Your task to perform on an android device: open app "Google Home" Image 0: 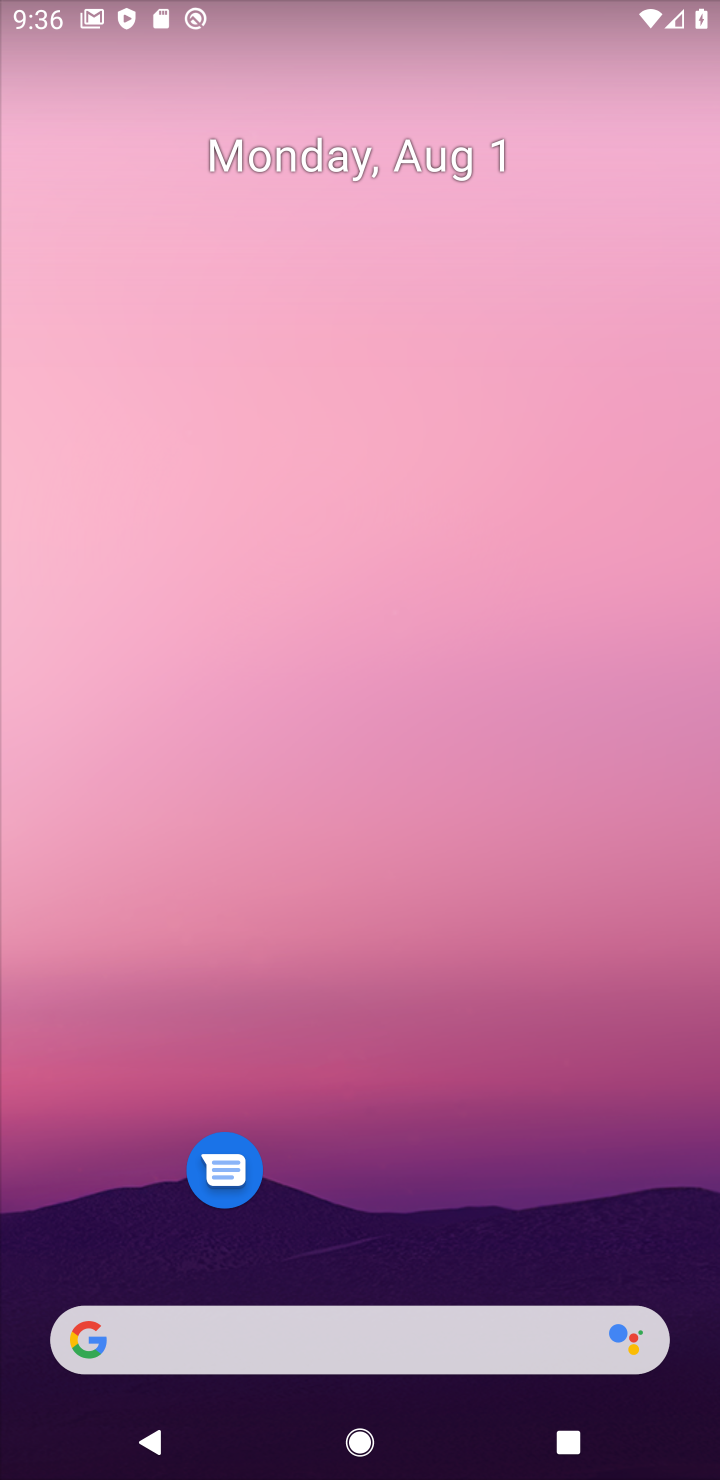
Step 0: click (264, 272)
Your task to perform on an android device: open app "Google Home" Image 1: 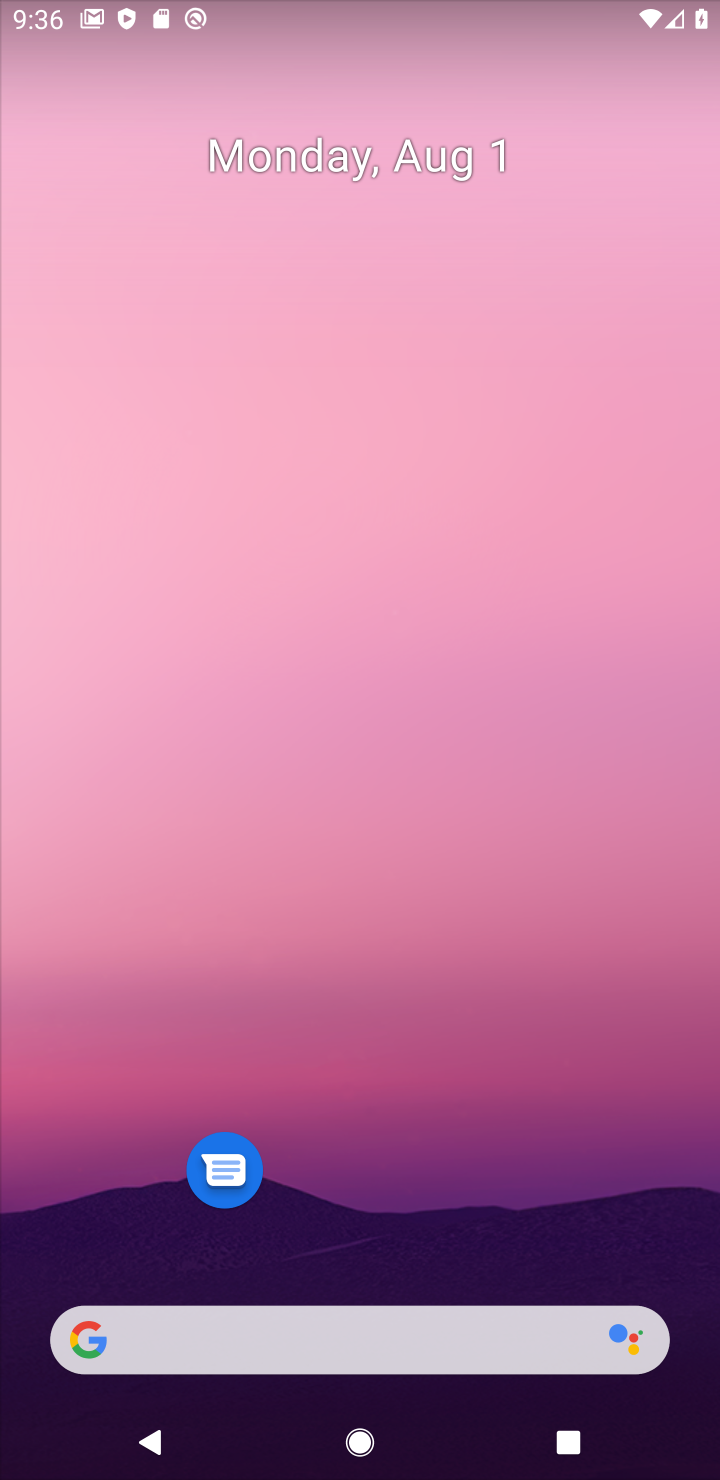
Step 1: drag from (235, 933) to (398, 171)
Your task to perform on an android device: open app "Google Home" Image 2: 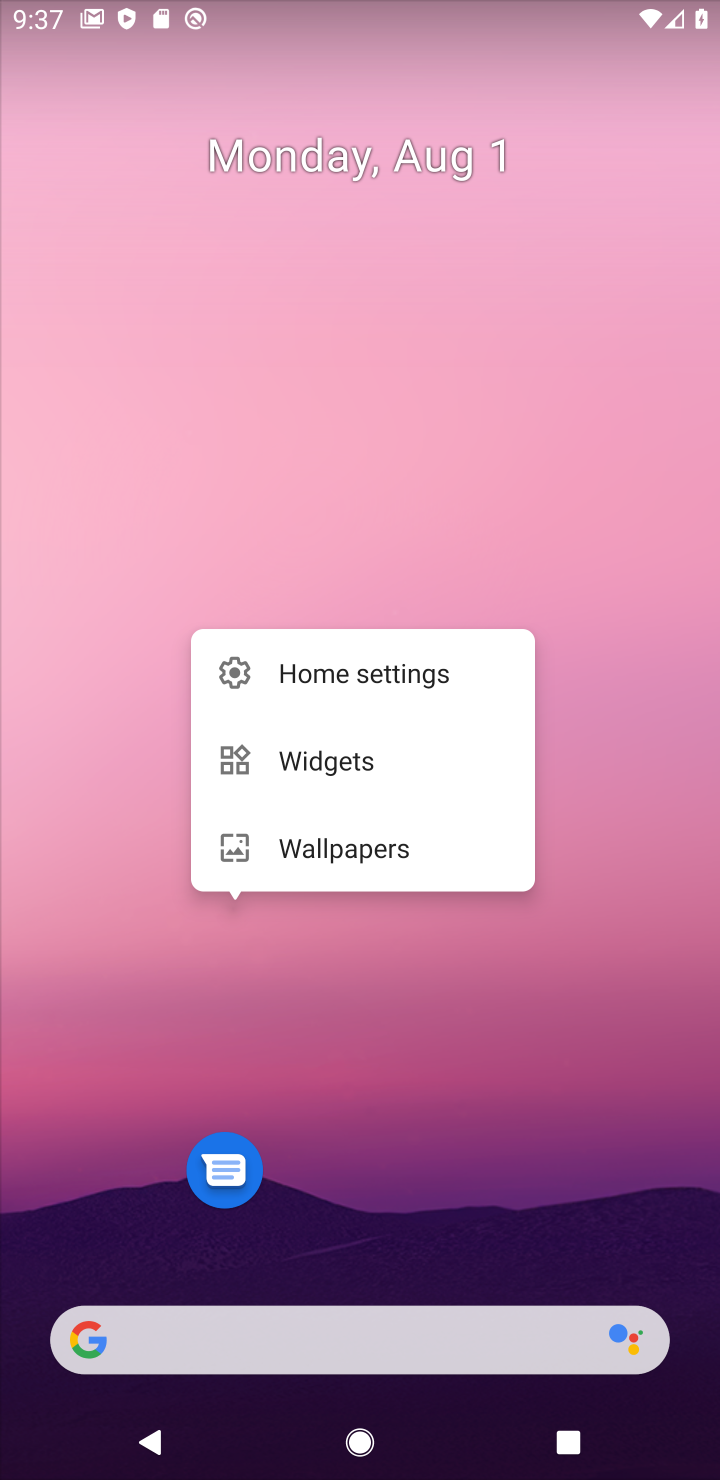
Step 2: drag from (282, 756) to (404, 247)
Your task to perform on an android device: open app "Google Home" Image 3: 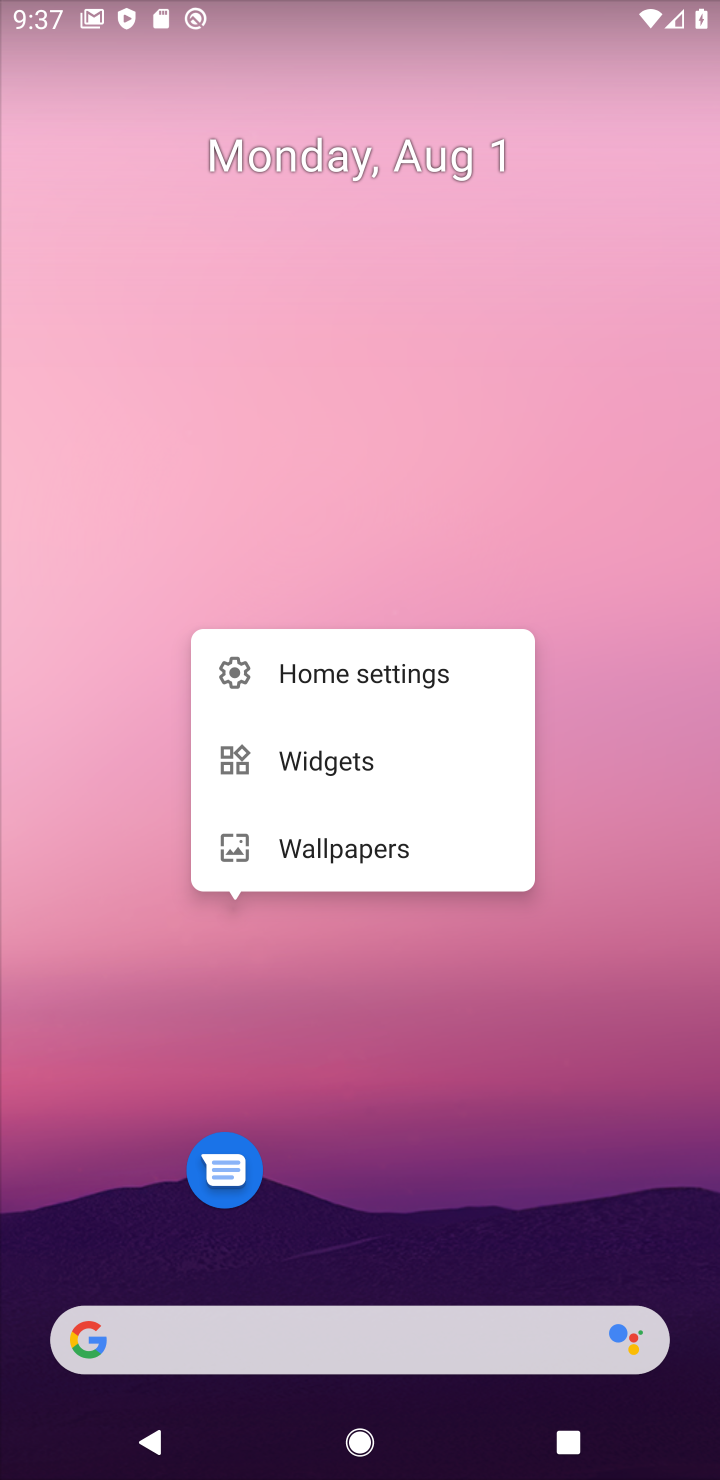
Step 3: drag from (441, 575) to (224, 146)
Your task to perform on an android device: open app "Google Home" Image 4: 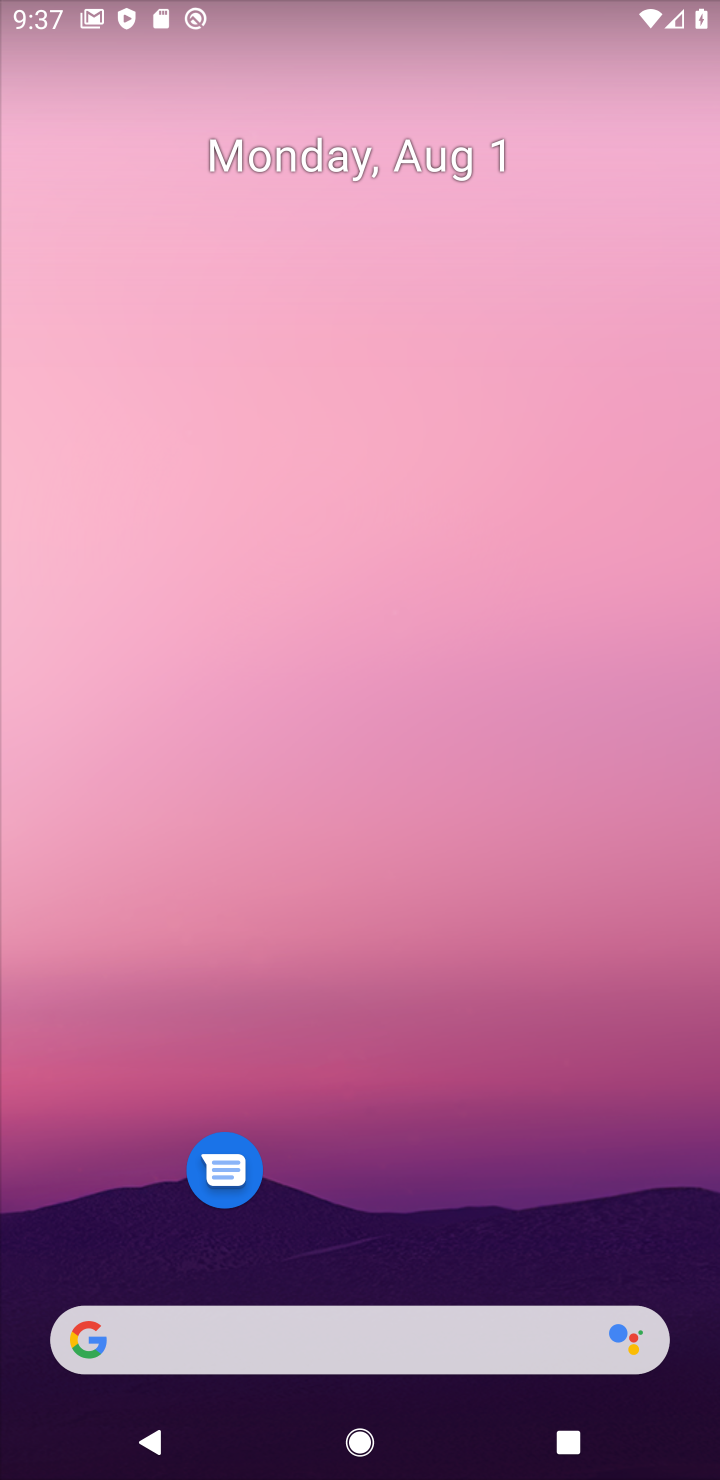
Step 4: drag from (382, 1297) to (495, 26)
Your task to perform on an android device: open app "Google Home" Image 5: 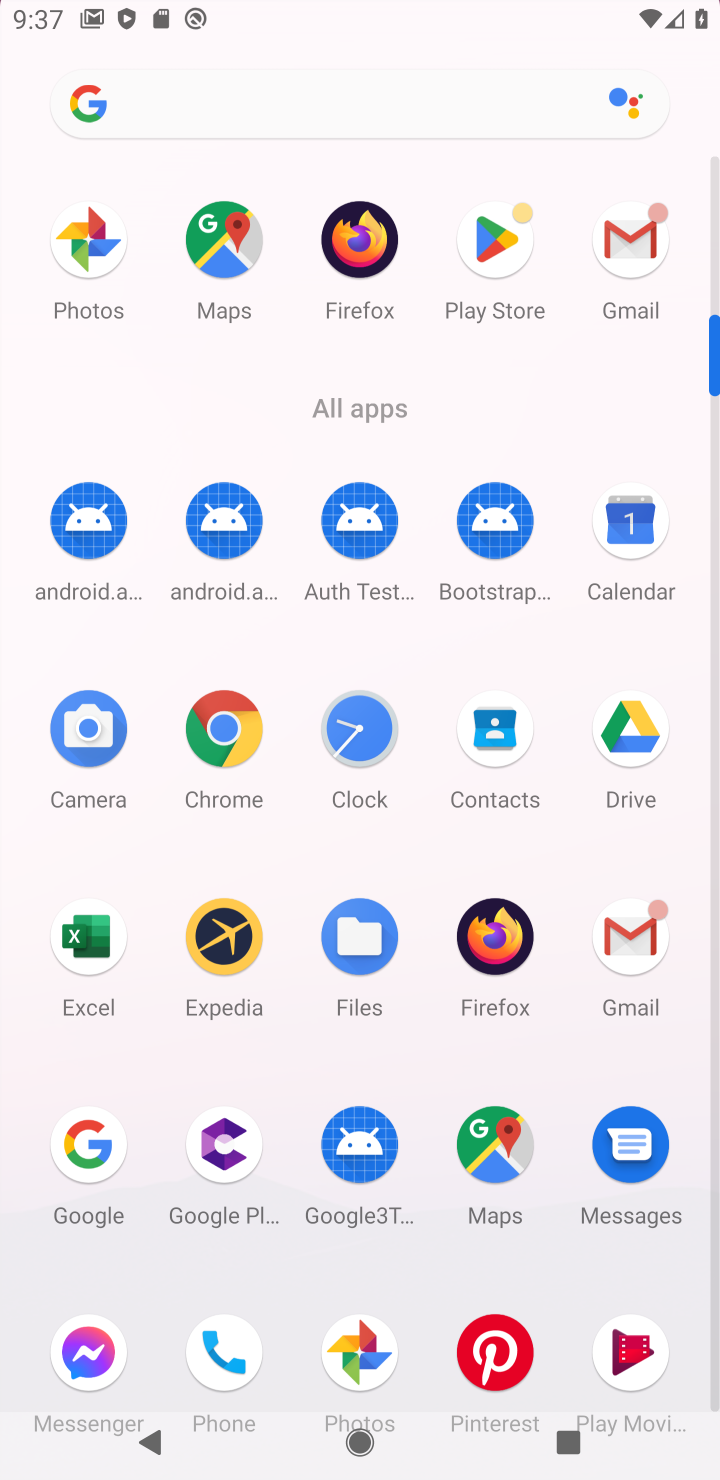
Step 5: drag from (573, 657) to (561, 75)
Your task to perform on an android device: open app "Google Home" Image 6: 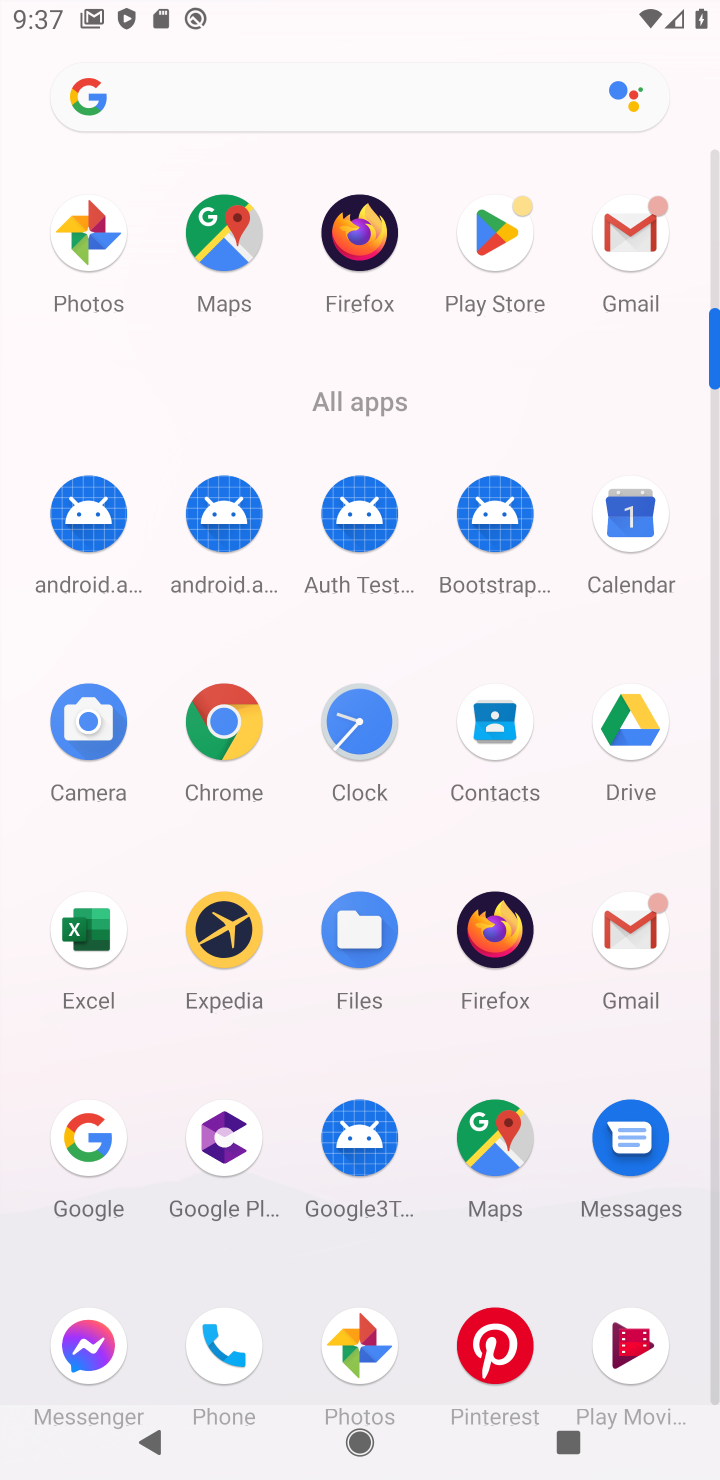
Step 6: click (495, 238)
Your task to perform on an android device: open app "Google Home" Image 7: 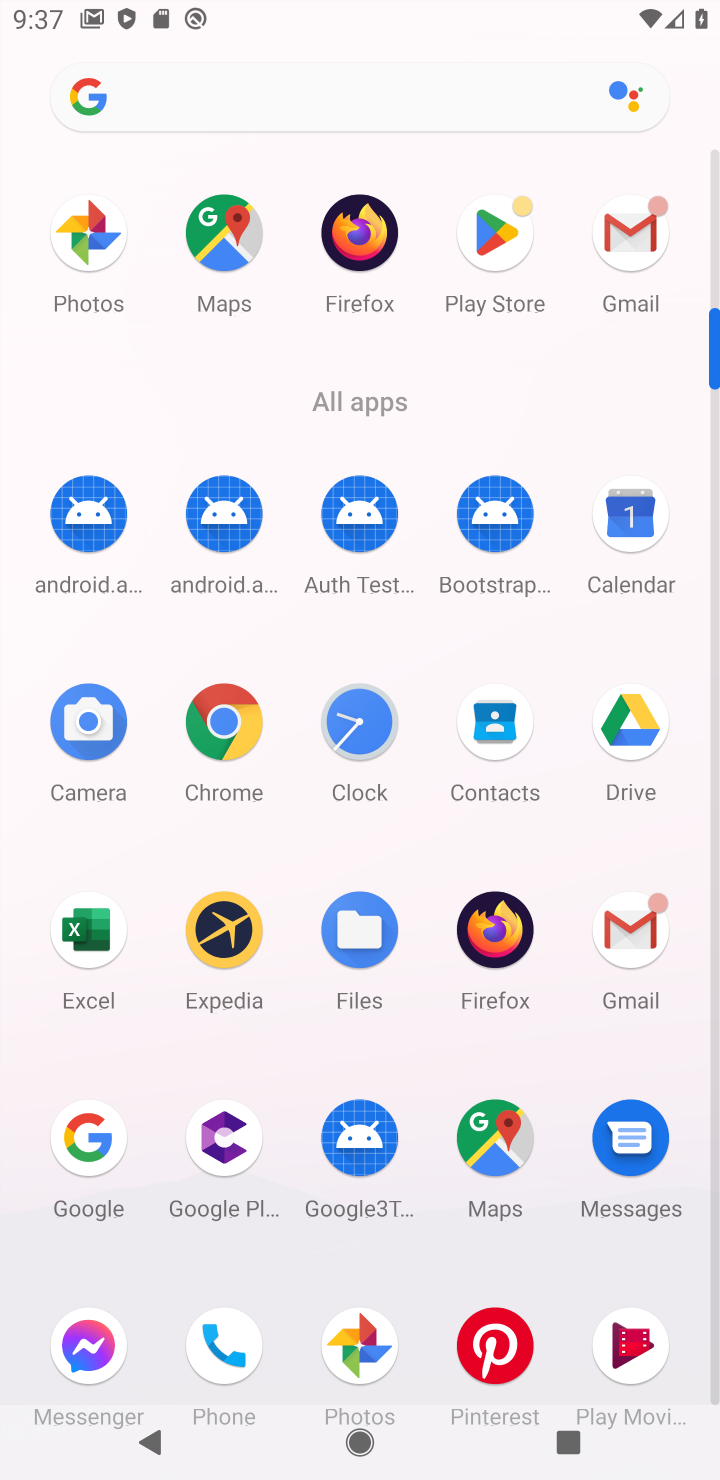
Step 7: click (495, 238)
Your task to perform on an android device: open app "Google Home" Image 8: 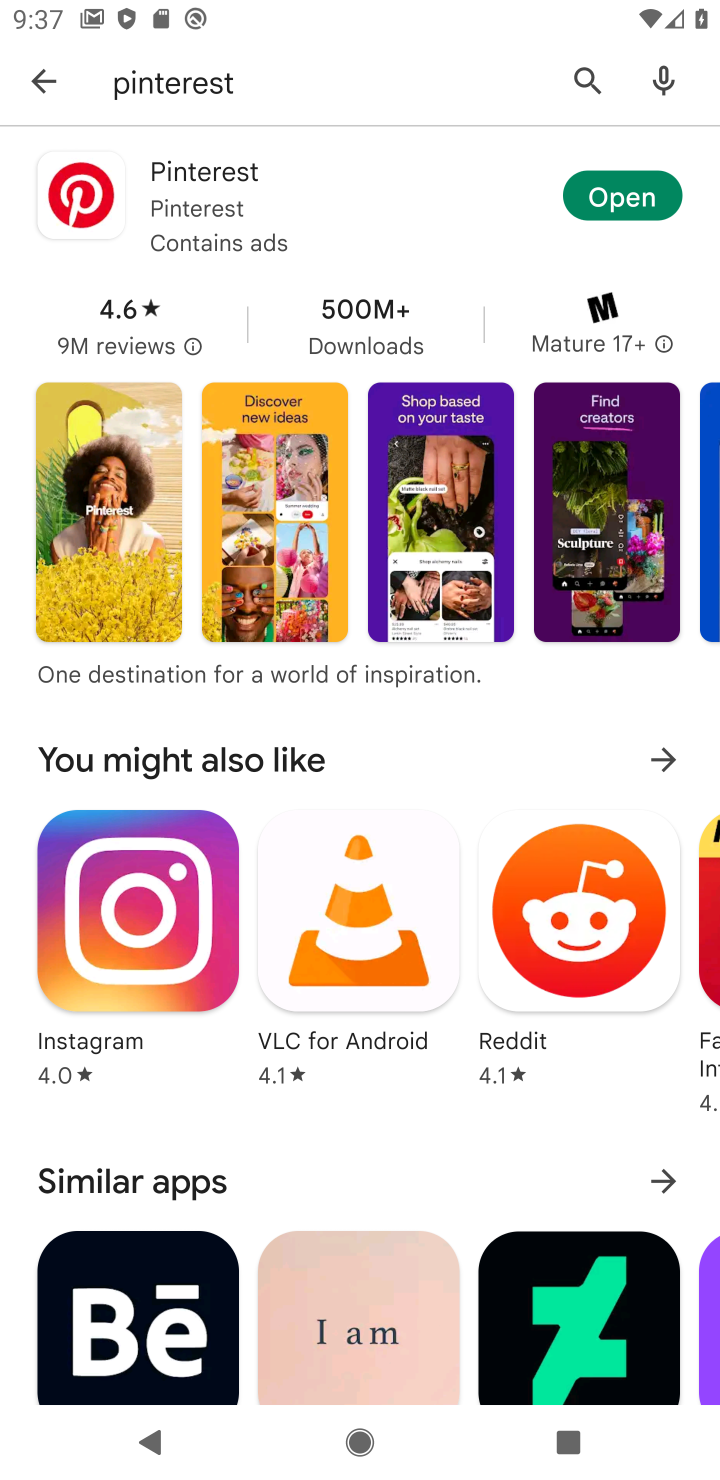
Step 8: click (37, 77)
Your task to perform on an android device: open app "Google Home" Image 9: 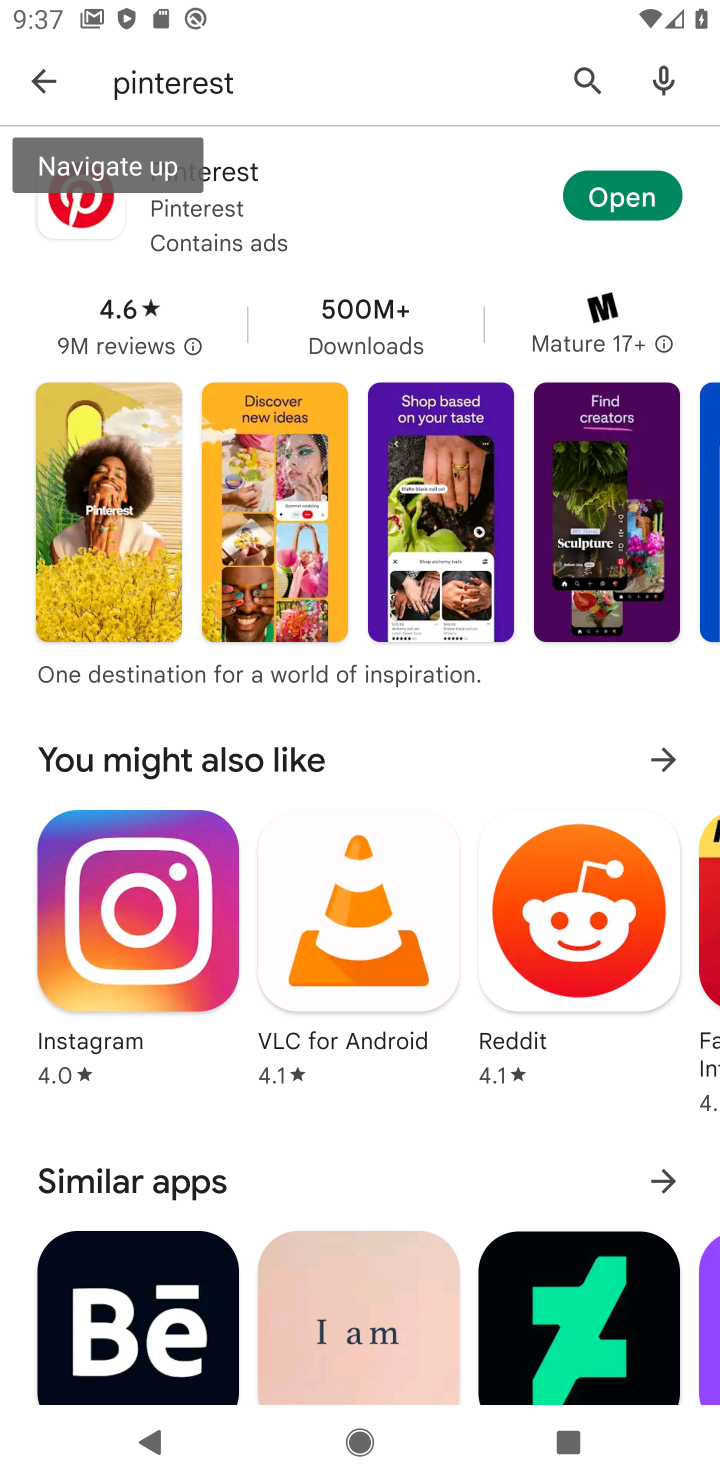
Step 9: click (55, 86)
Your task to perform on an android device: open app "Google Home" Image 10: 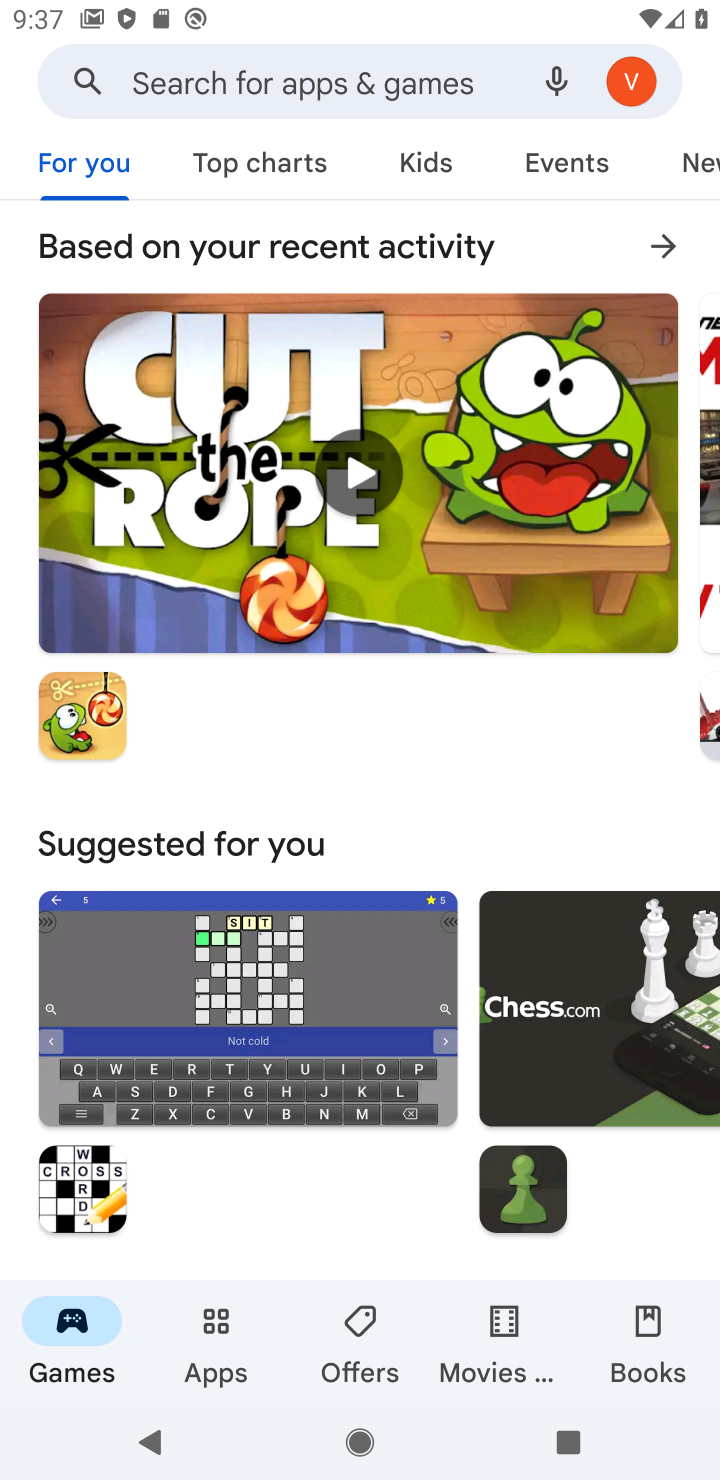
Step 10: click (169, 81)
Your task to perform on an android device: open app "Google Home" Image 11: 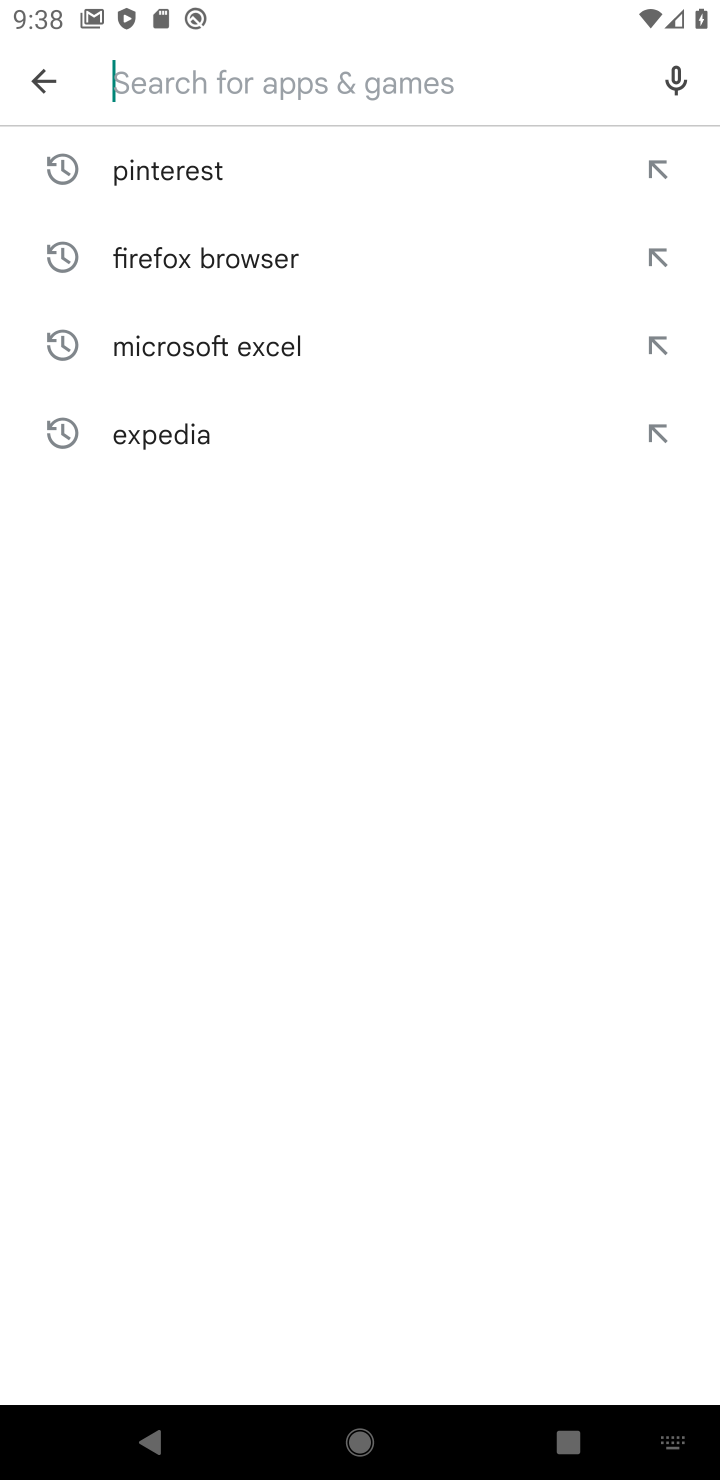
Step 11: type "google home"
Your task to perform on an android device: open app "Google Home" Image 12: 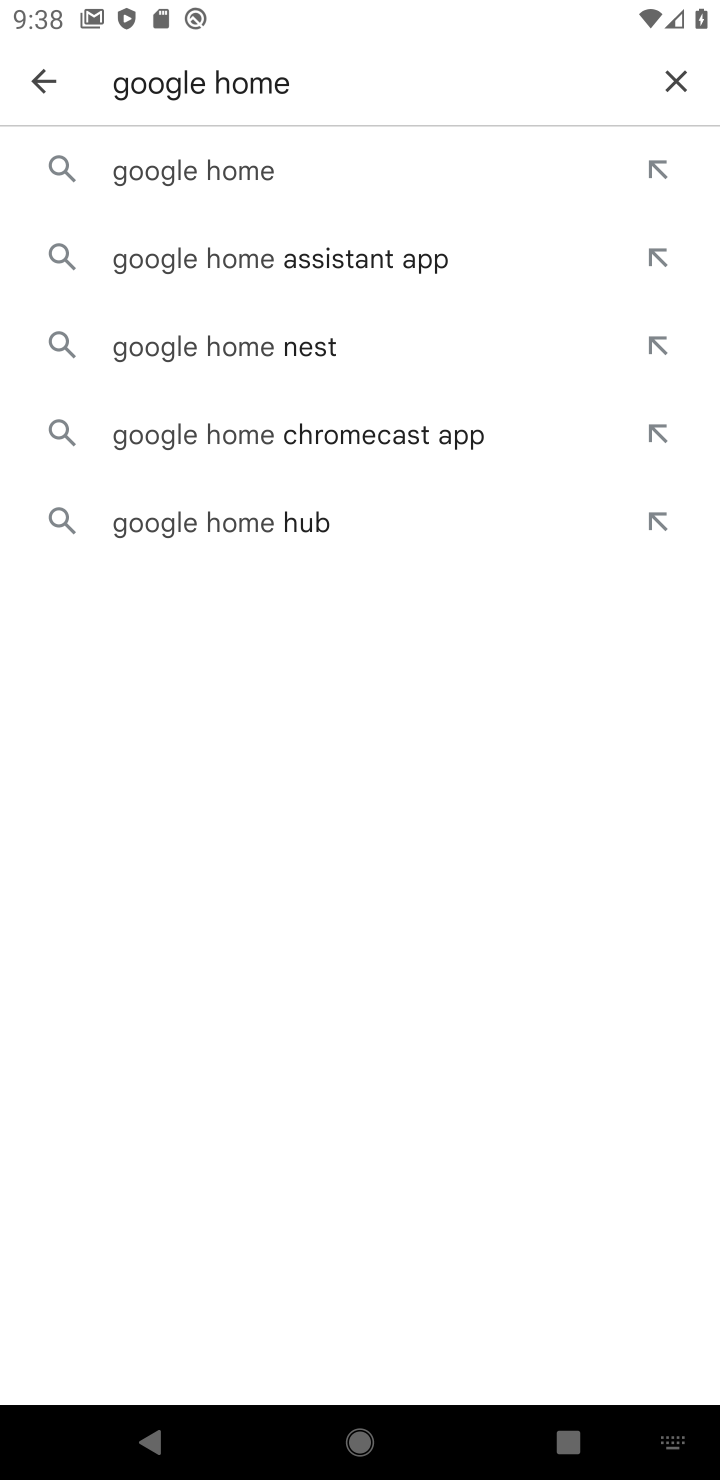
Step 12: click (216, 150)
Your task to perform on an android device: open app "Google Home" Image 13: 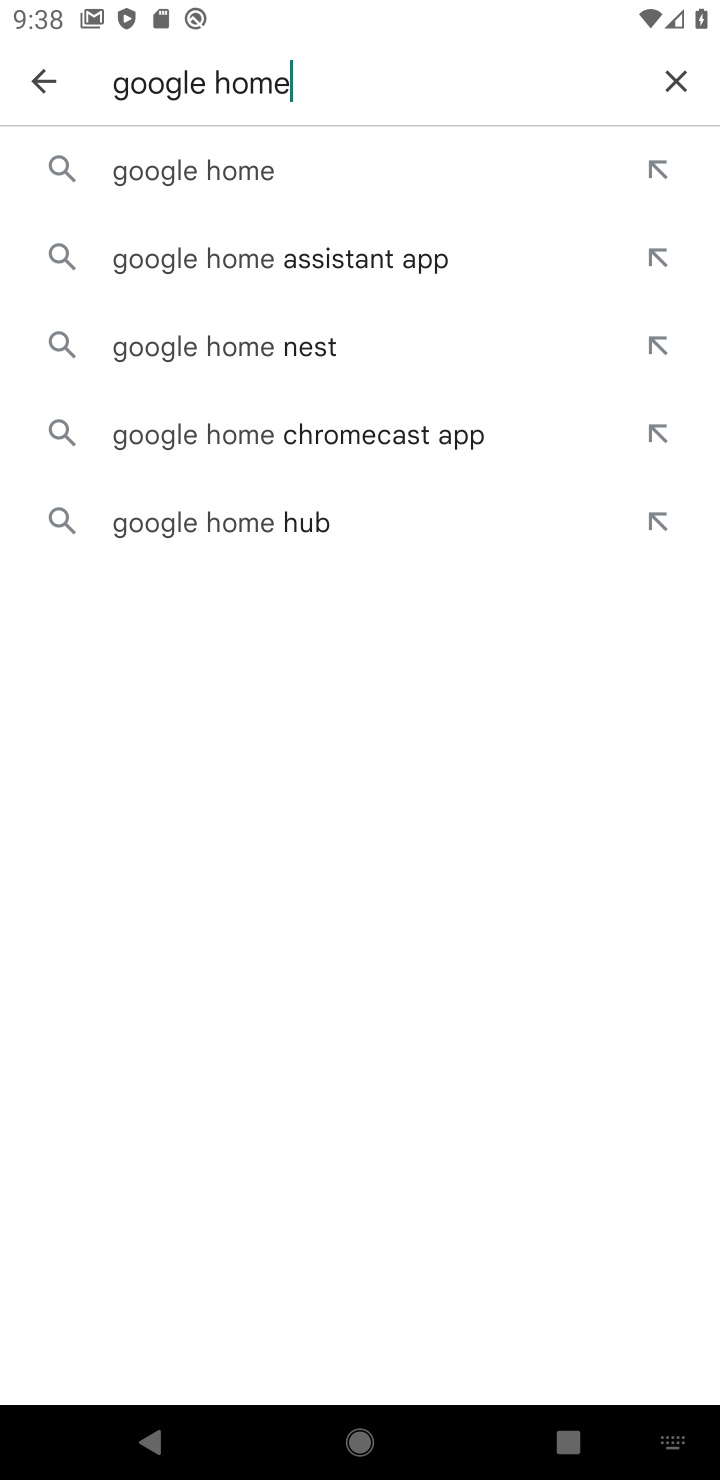
Step 13: click (225, 165)
Your task to perform on an android device: open app "Google Home" Image 14: 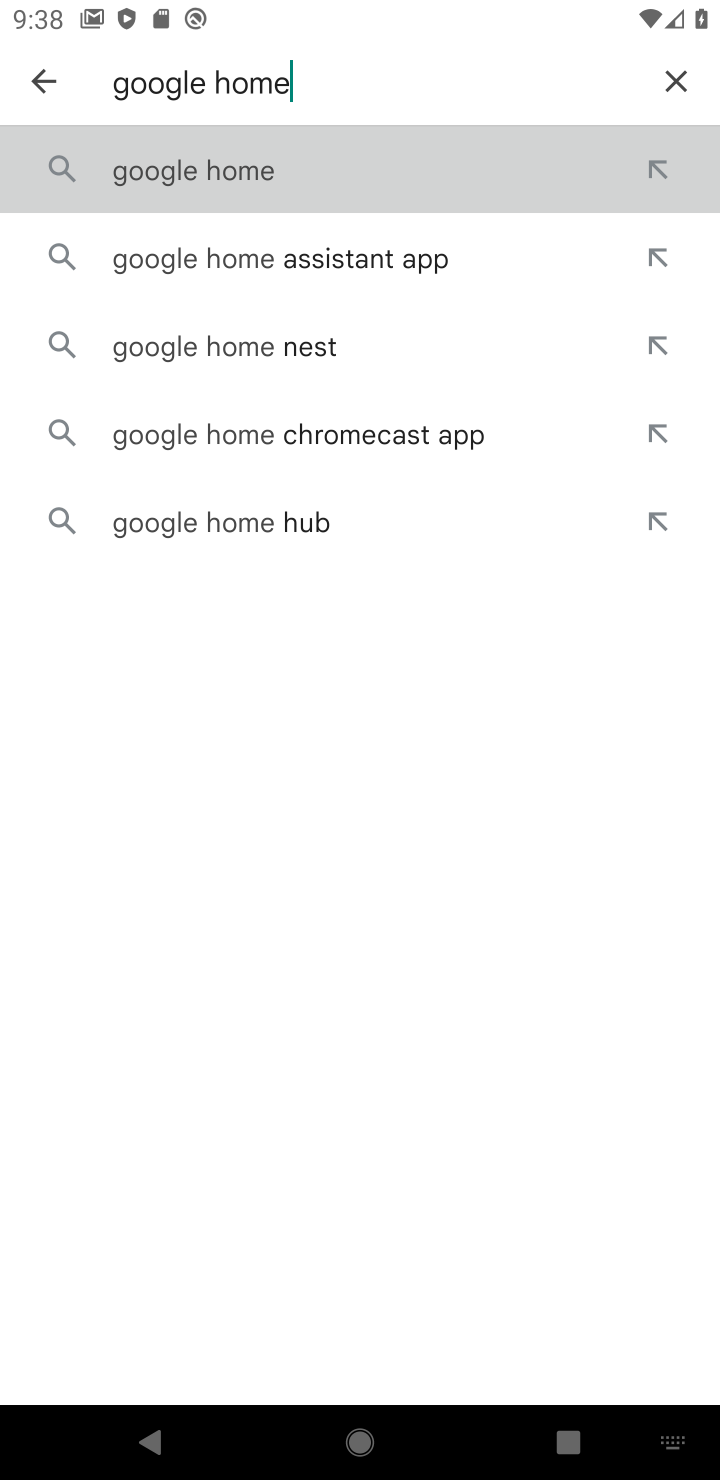
Step 14: click (231, 166)
Your task to perform on an android device: open app "Google Home" Image 15: 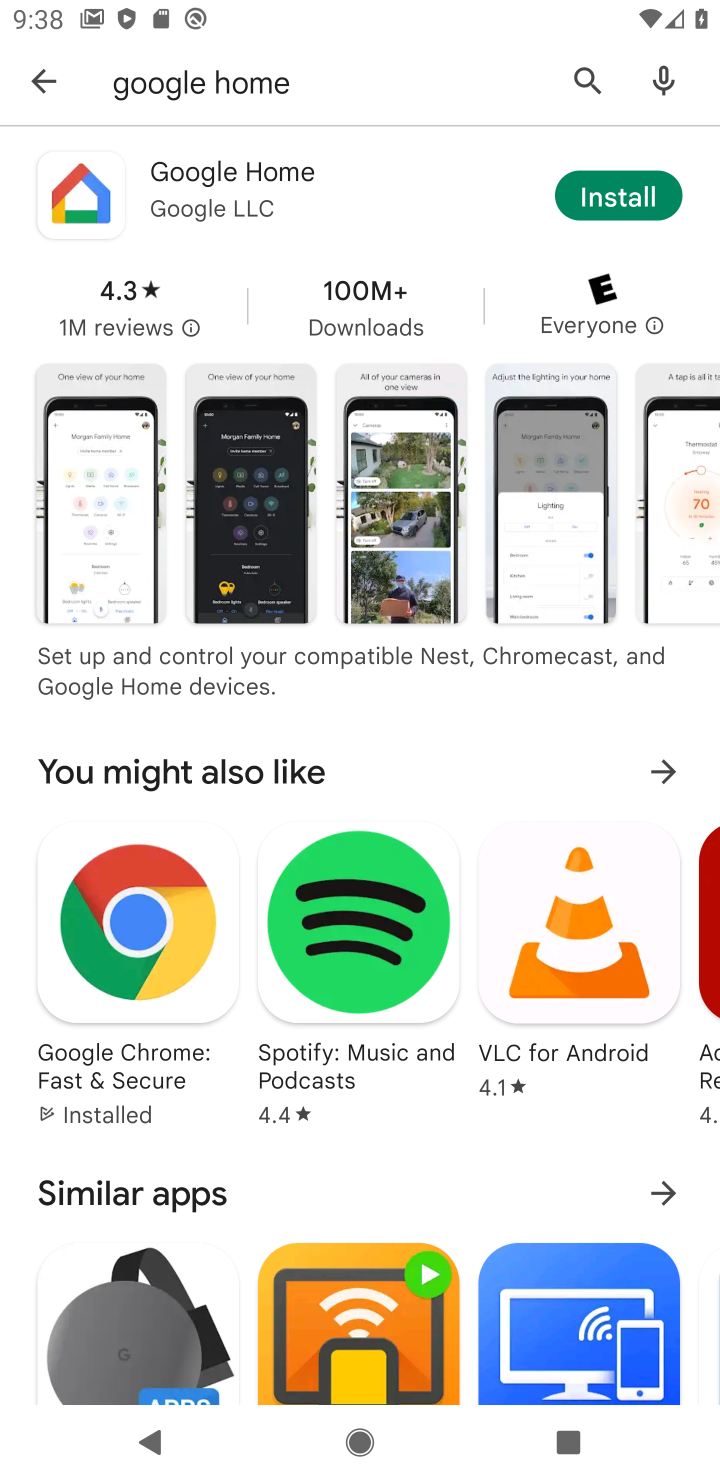
Step 15: click (620, 192)
Your task to perform on an android device: open app "Google Home" Image 16: 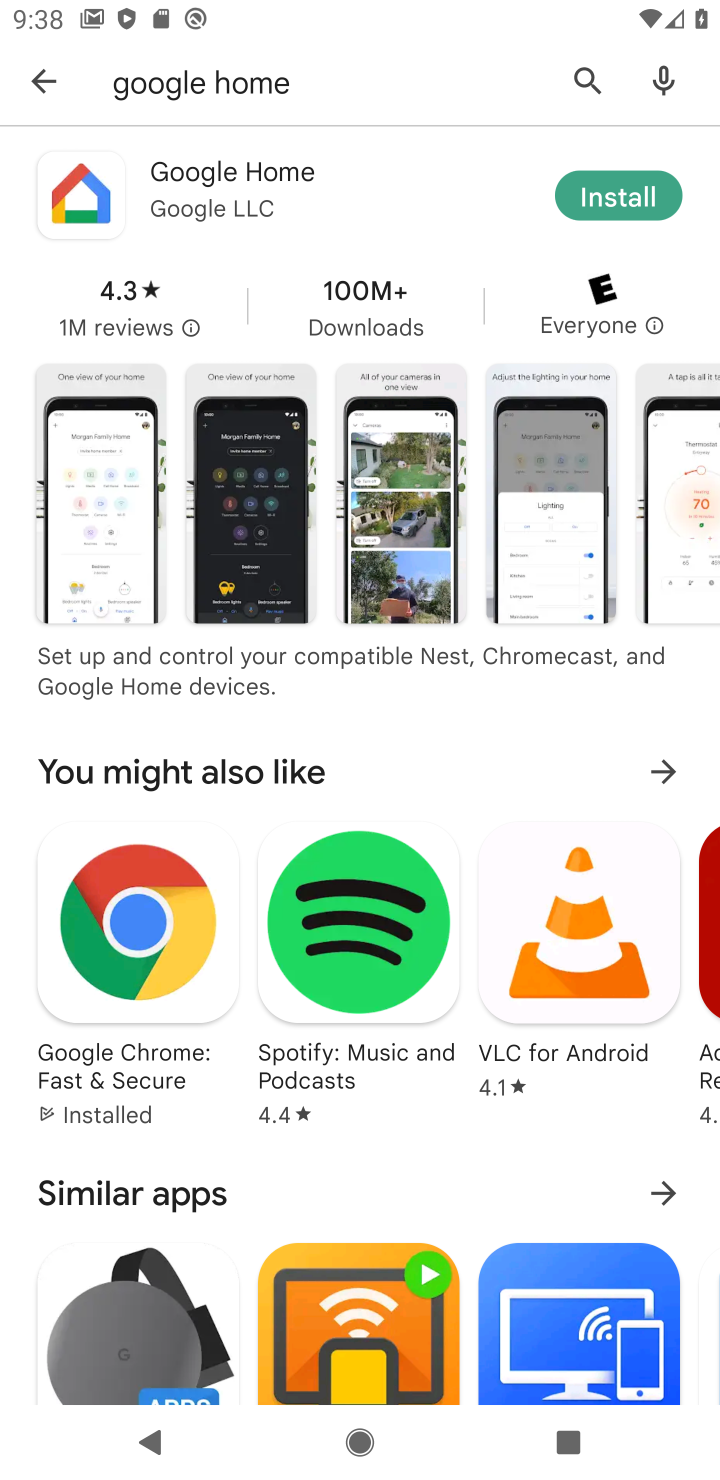
Step 16: click (620, 192)
Your task to perform on an android device: open app "Google Home" Image 17: 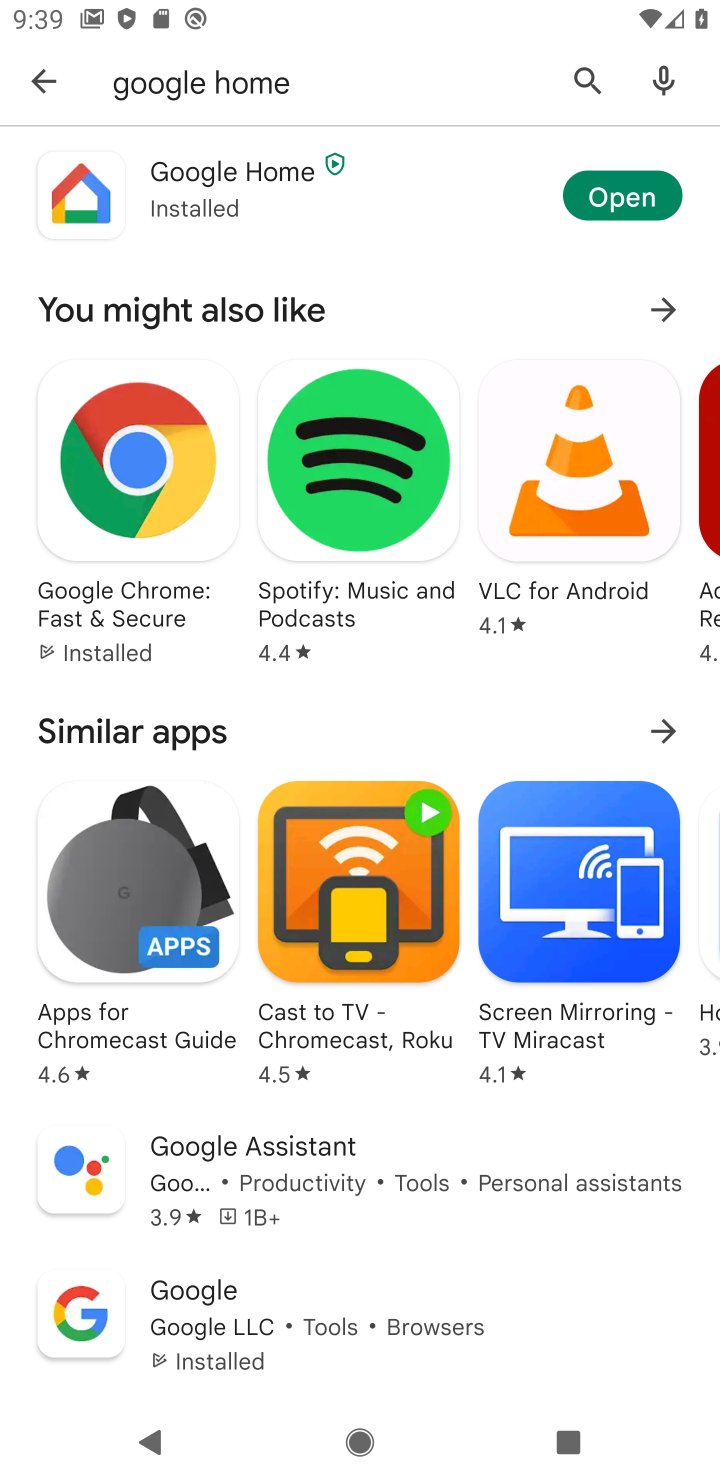
Step 17: click (638, 186)
Your task to perform on an android device: open app "Google Home" Image 18: 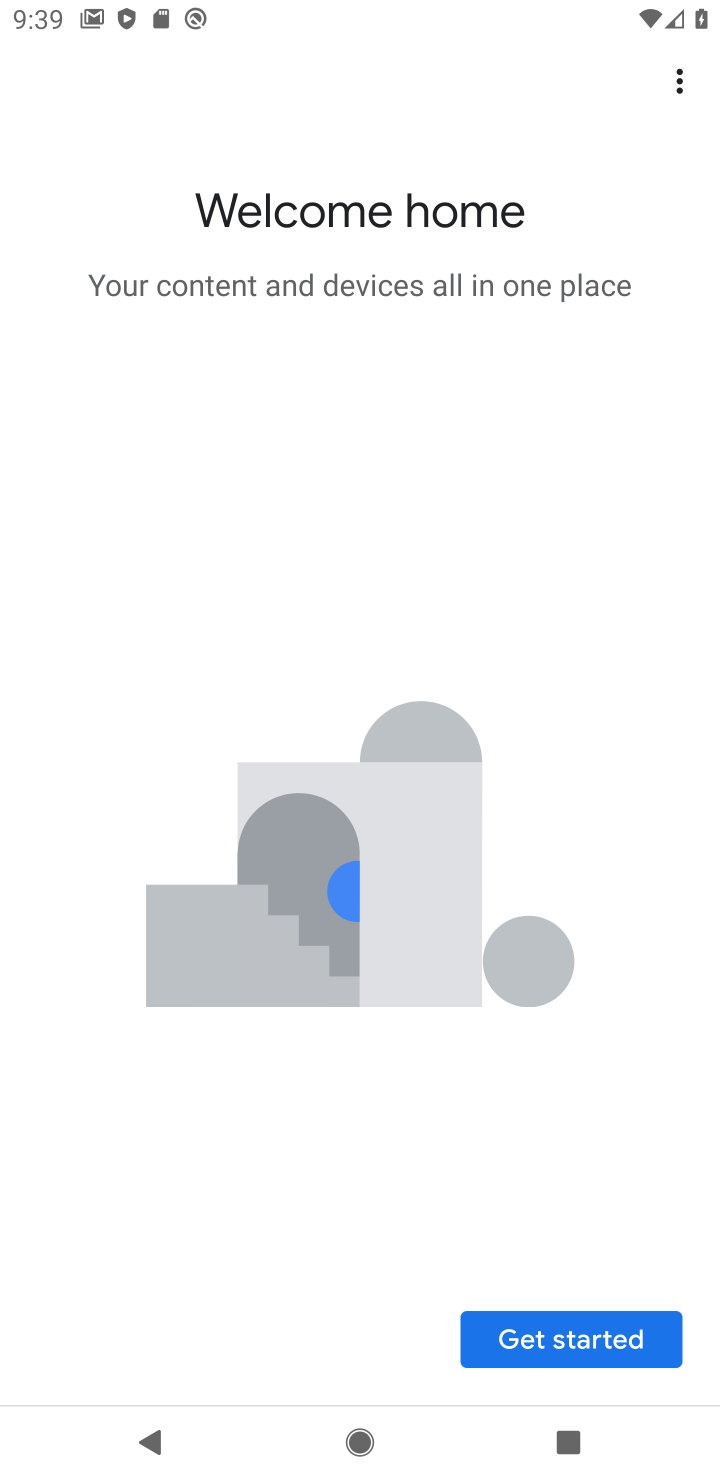
Step 18: click (566, 1319)
Your task to perform on an android device: open app "Google Home" Image 19: 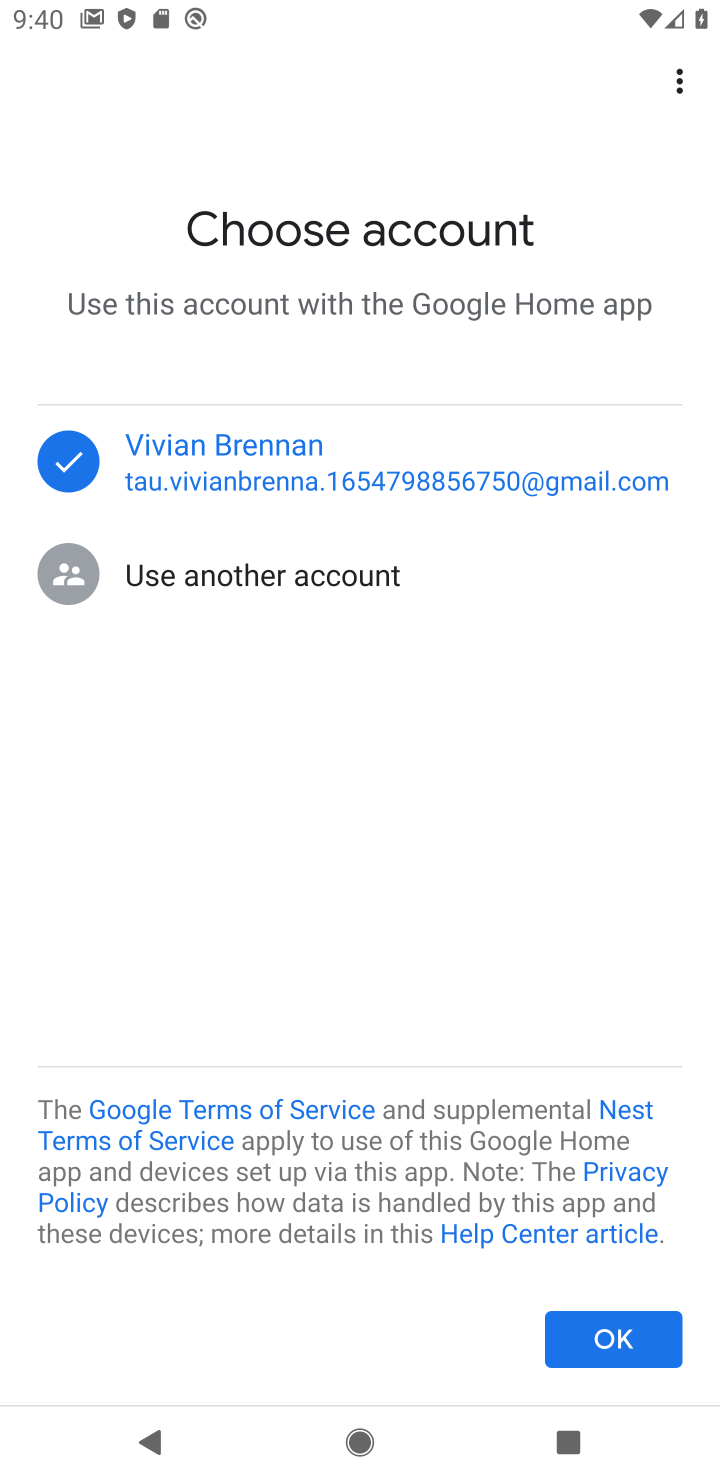
Step 19: click (638, 1314)
Your task to perform on an android device: open app "Google Home" Image 20: 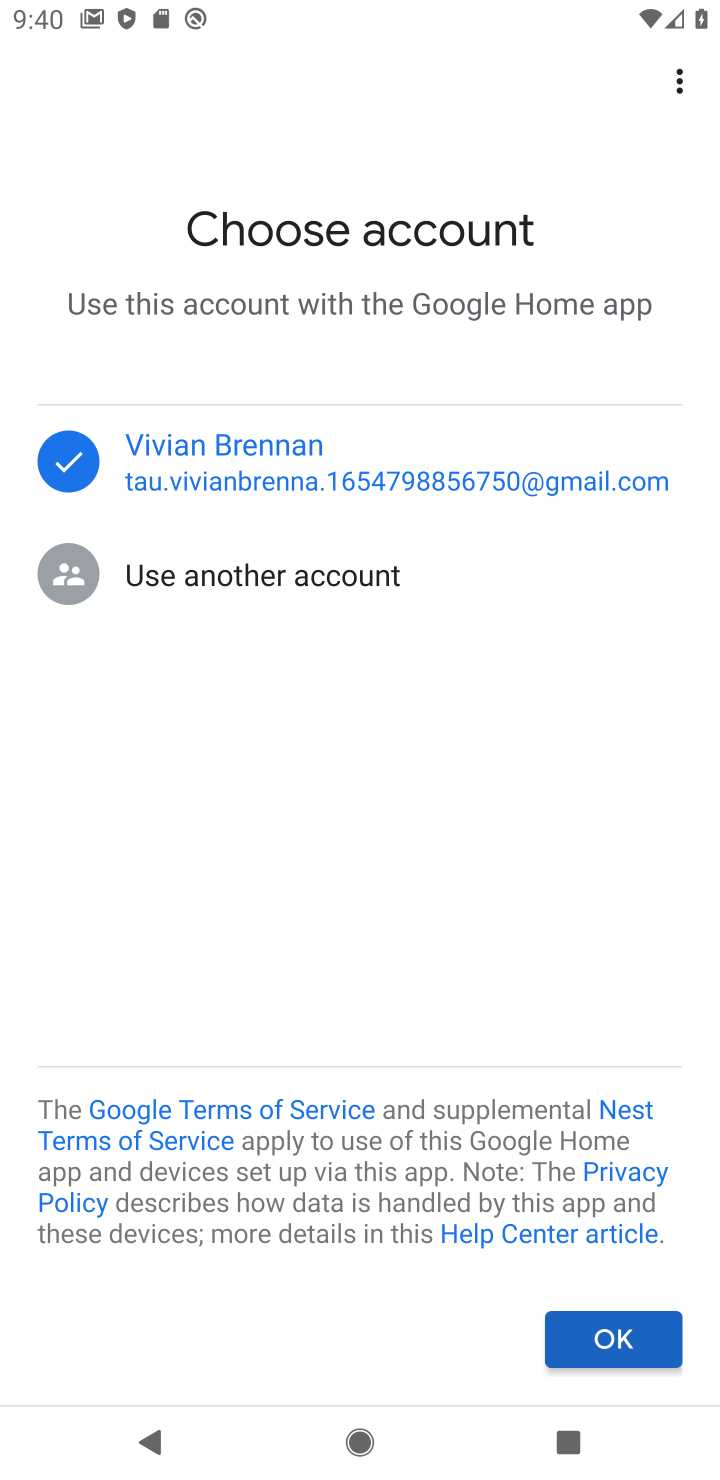
Step 20: click (640, 1314)
Your task to perform on an android device: open app "Google Home" Image 21: 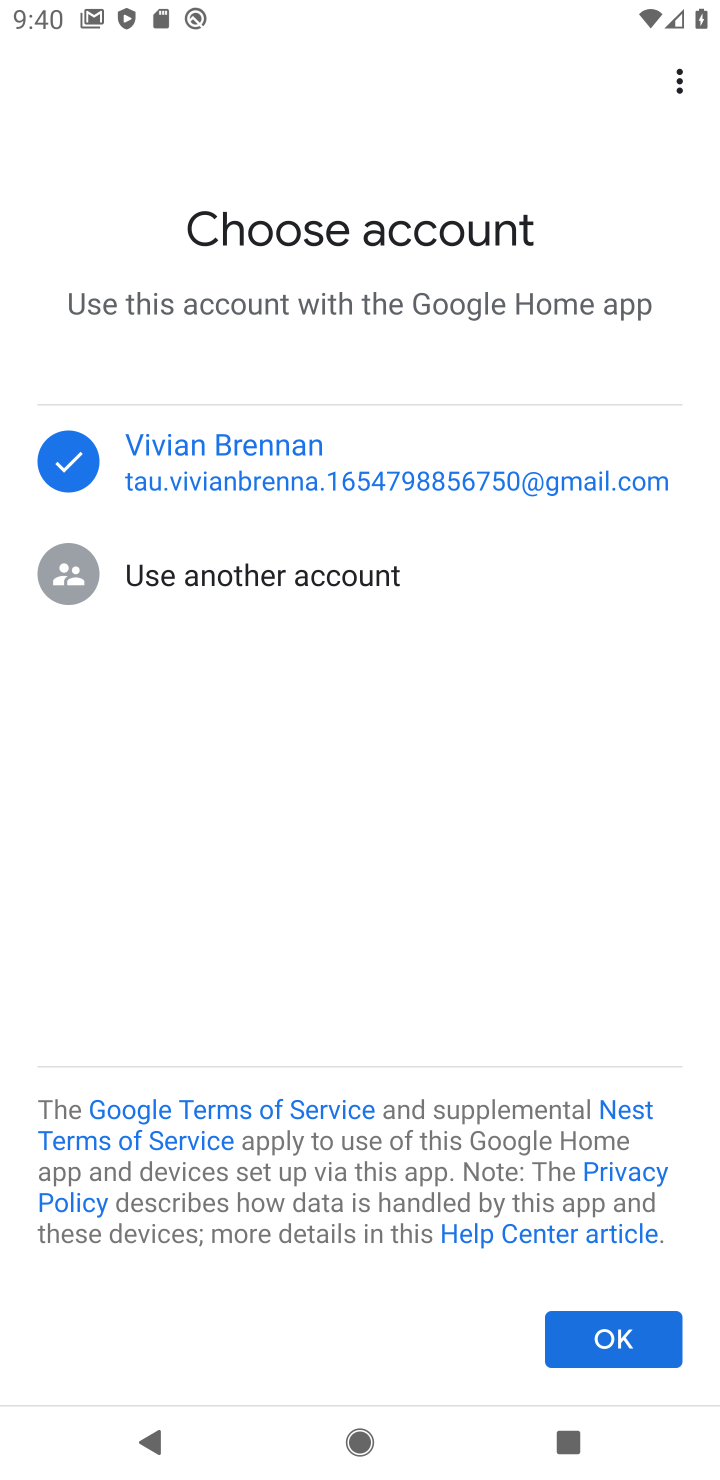
Step 21: click (640, 1314)
Your task to perform on an android device: open app "Google Home" Image 22: 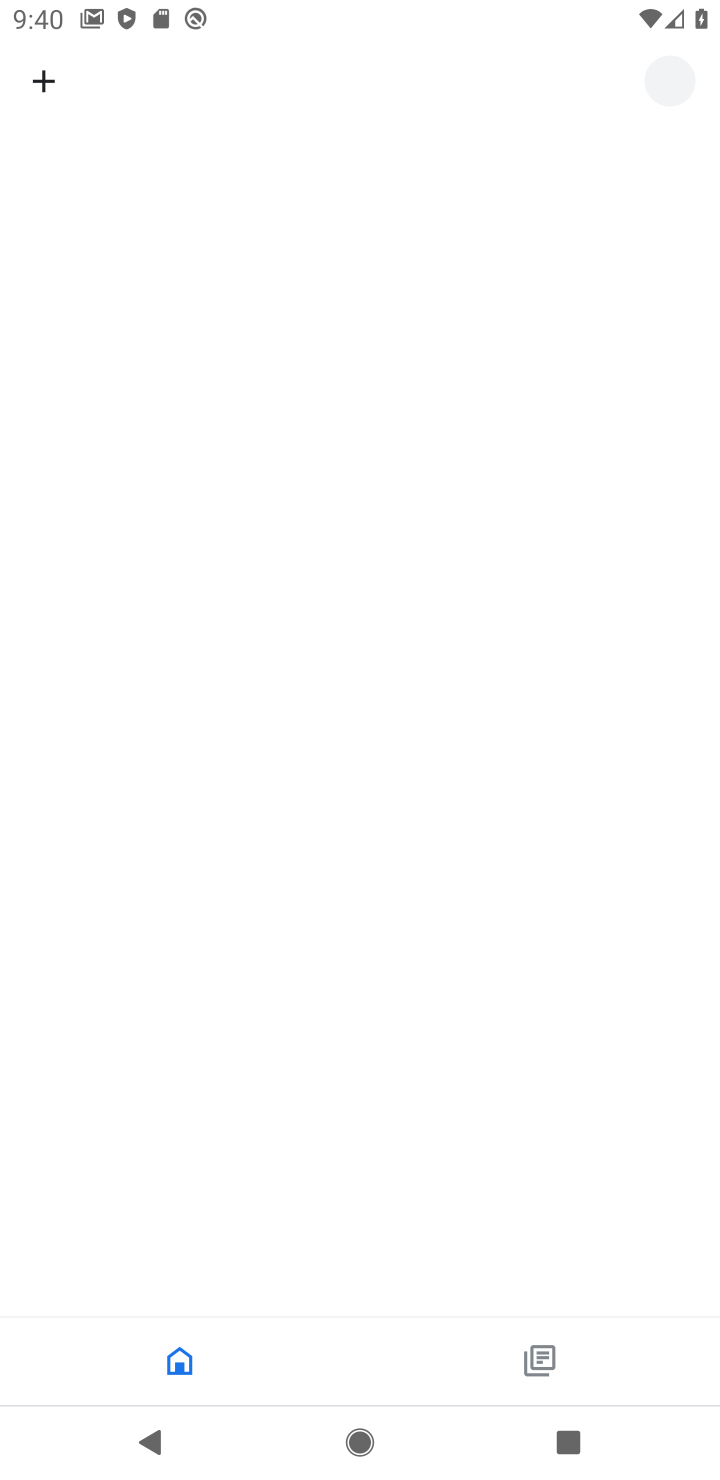
Step 22: click (622, 1337)
Your task to perform on an android device: open app "Google Home" Image 23: 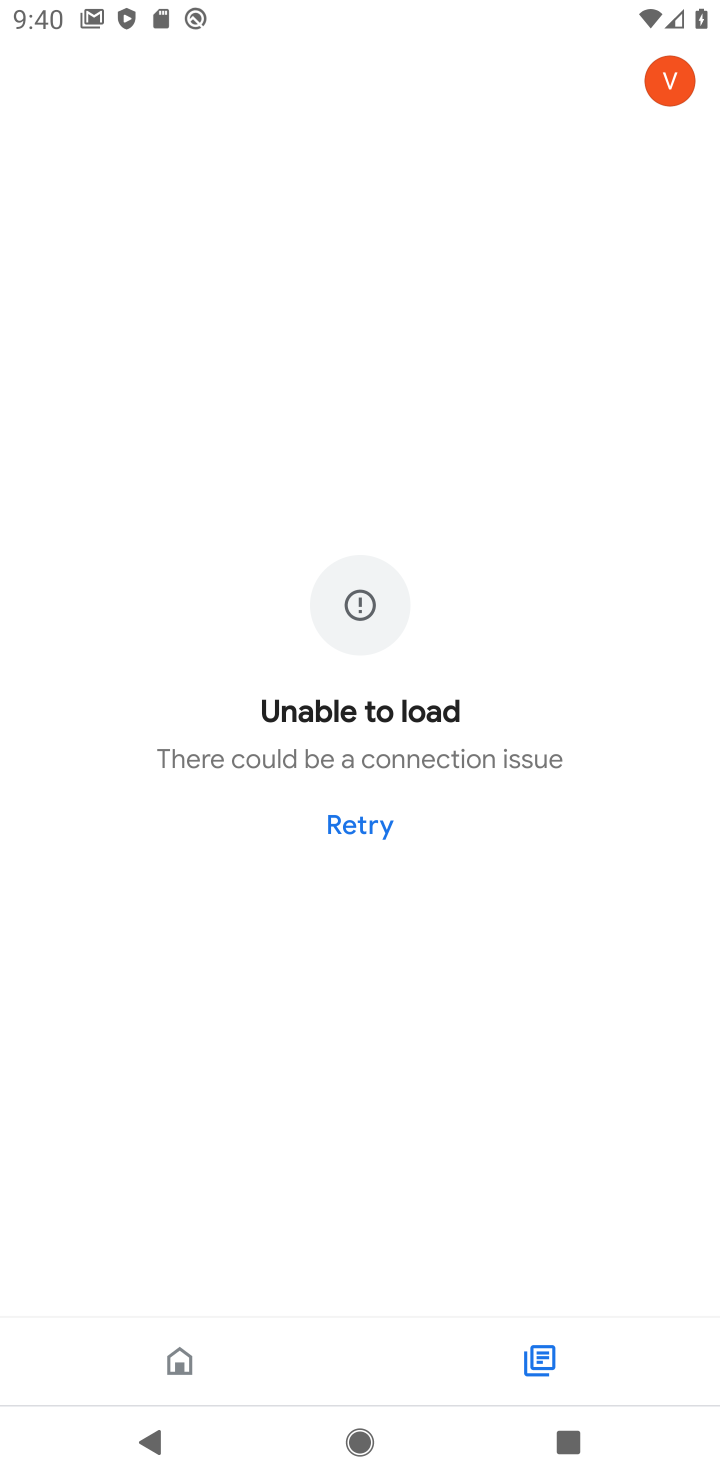
Step 23: press back button
Your task to perform on an android device: open app "Google Home" Image 24: 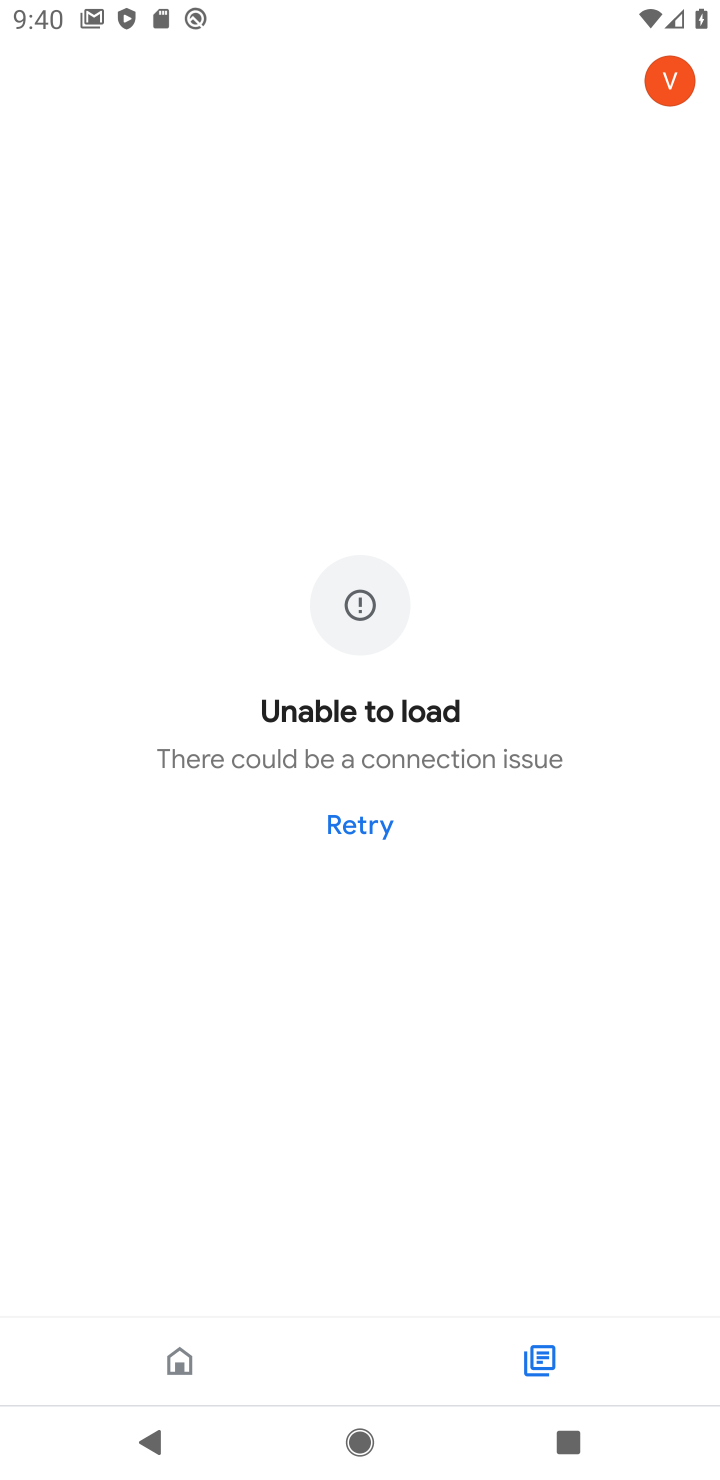
Step 24: press back button
Your task to perform on an android device: open app "Google Home" Image 25: 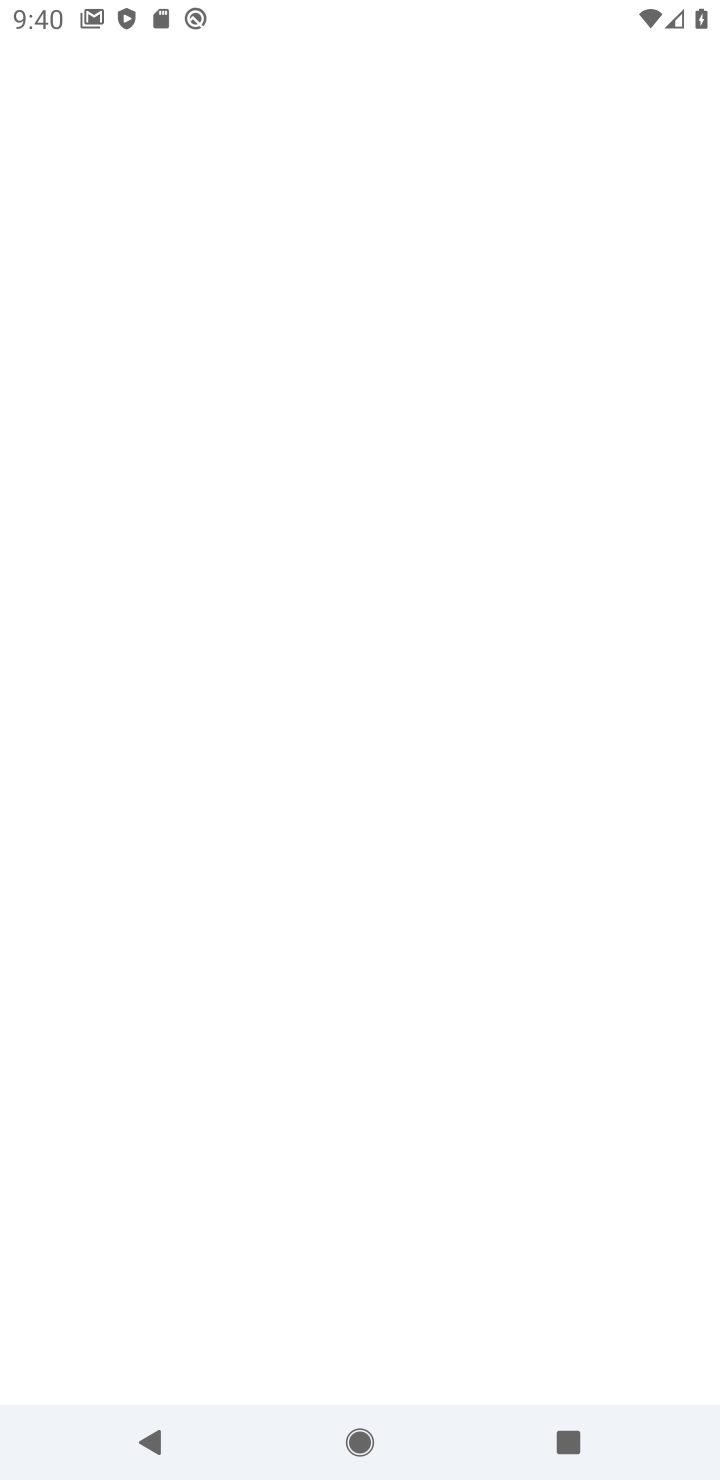
Step 25: press back button
Your task to perform on an android device: open app "Google Home" Image 26: 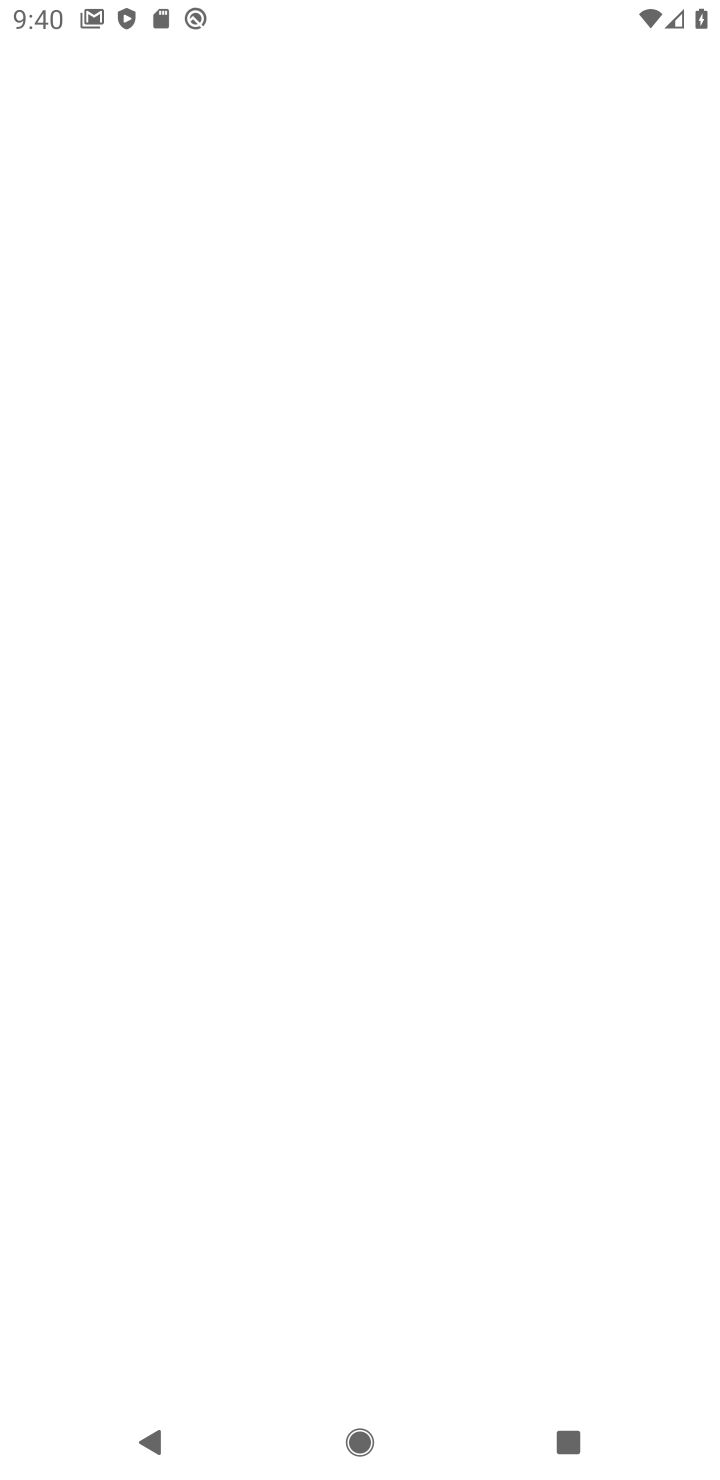
Step 26: press home button
Your task to perform on an android device: open app "Google Home" Image 27: 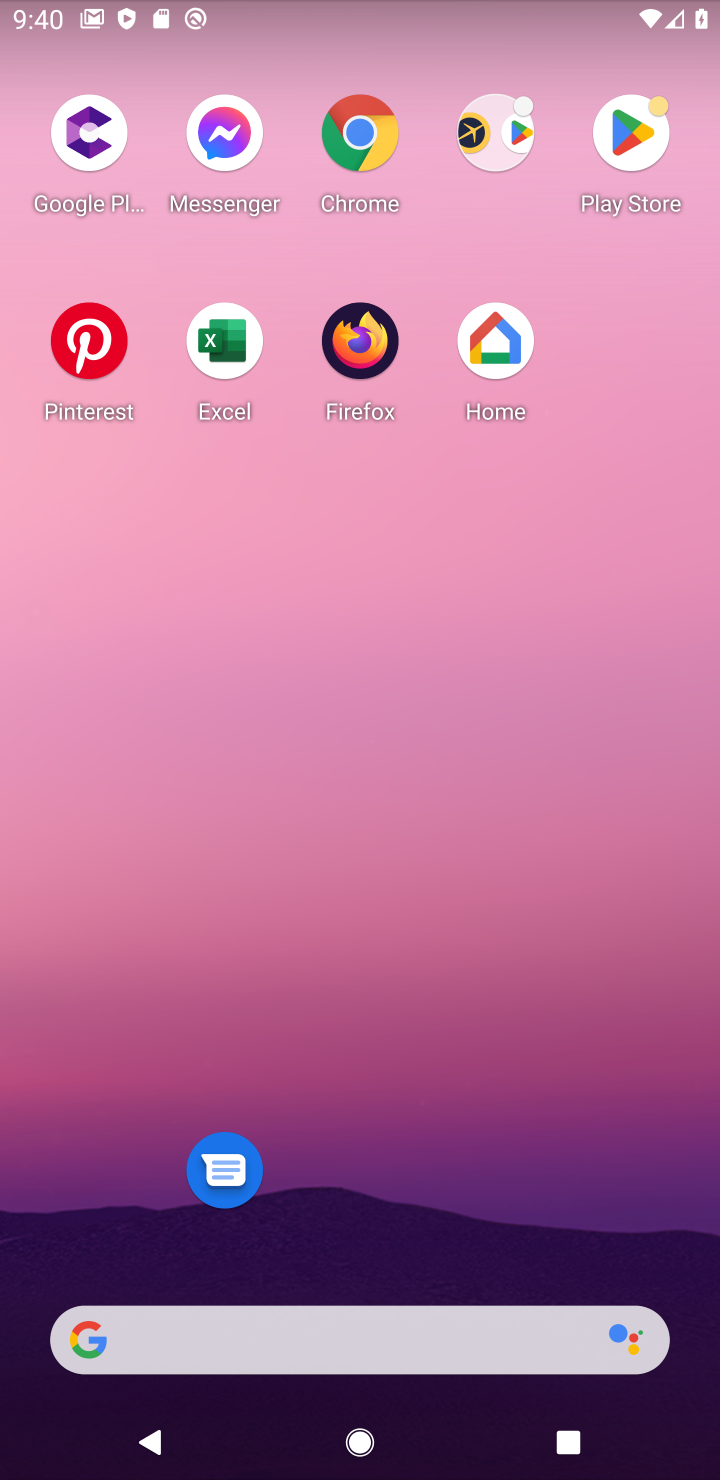
Step 27: drag from (375, 1071) to (304, 388)
Your task to perform on an android device: open app "Google Home" Image 28: 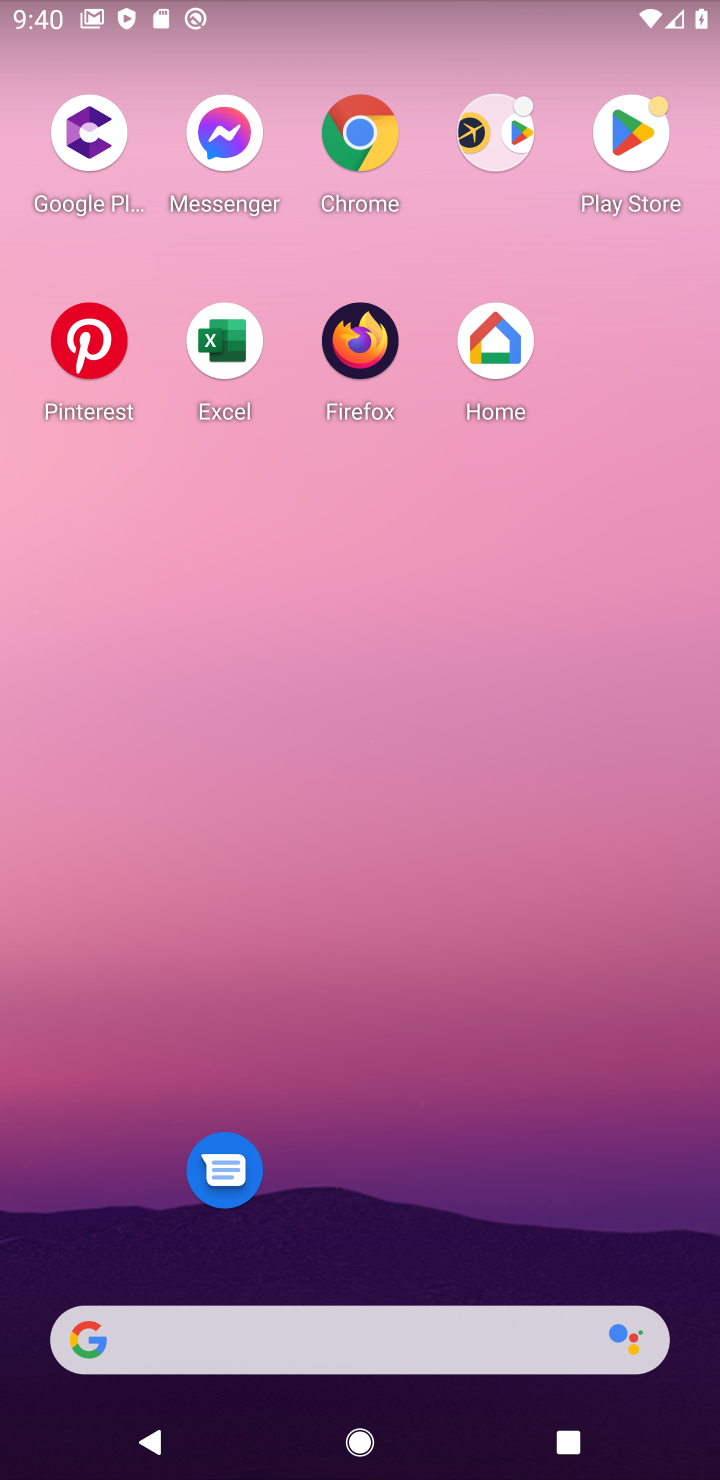
Step 28: drag from (368, 236) to (372, 107)
Your task to perform on an android device: open app "Google Home" Image 29: 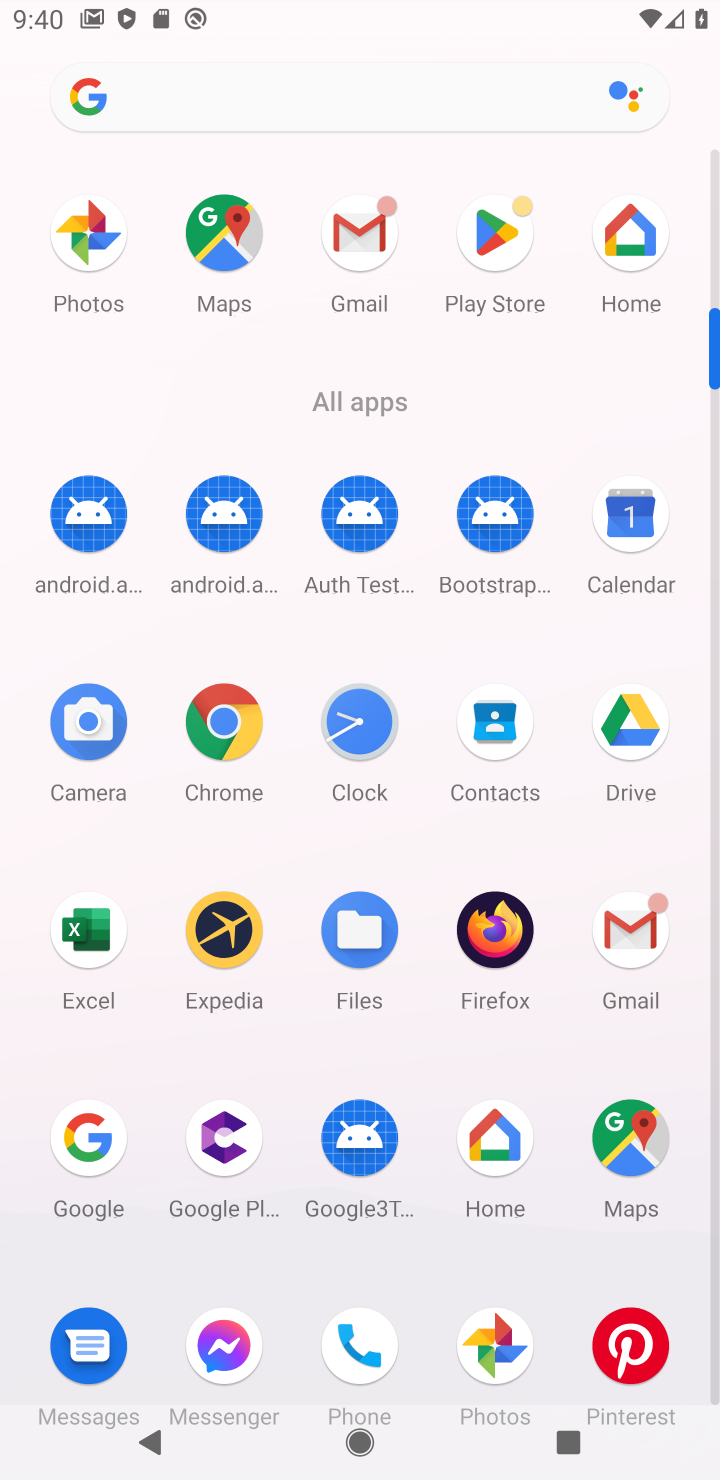
Step 29: click (488, 246)
Your task to perform on an android device: open app "Google Home" Image 30: 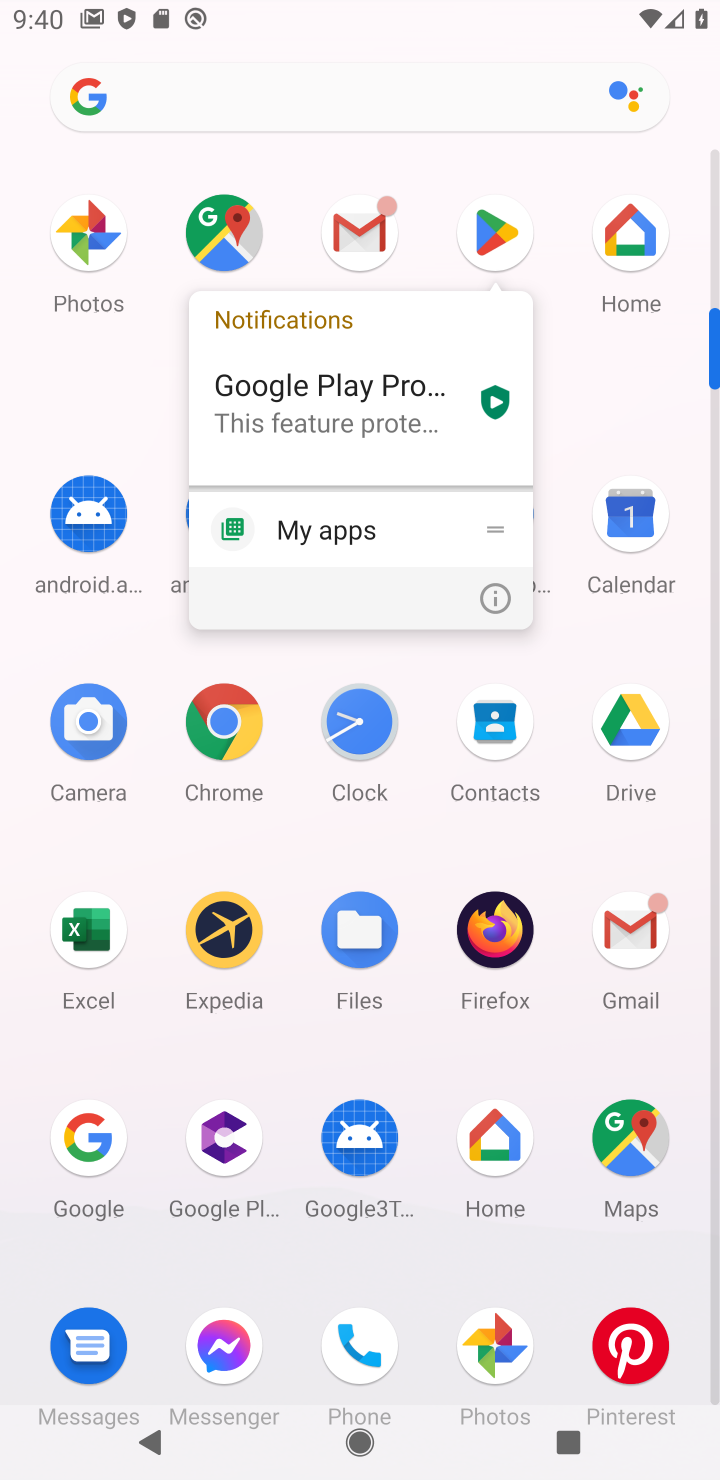
Step 30: click (492, 251)
Your task to perform on an android device: open app "Google Home" Image 31: 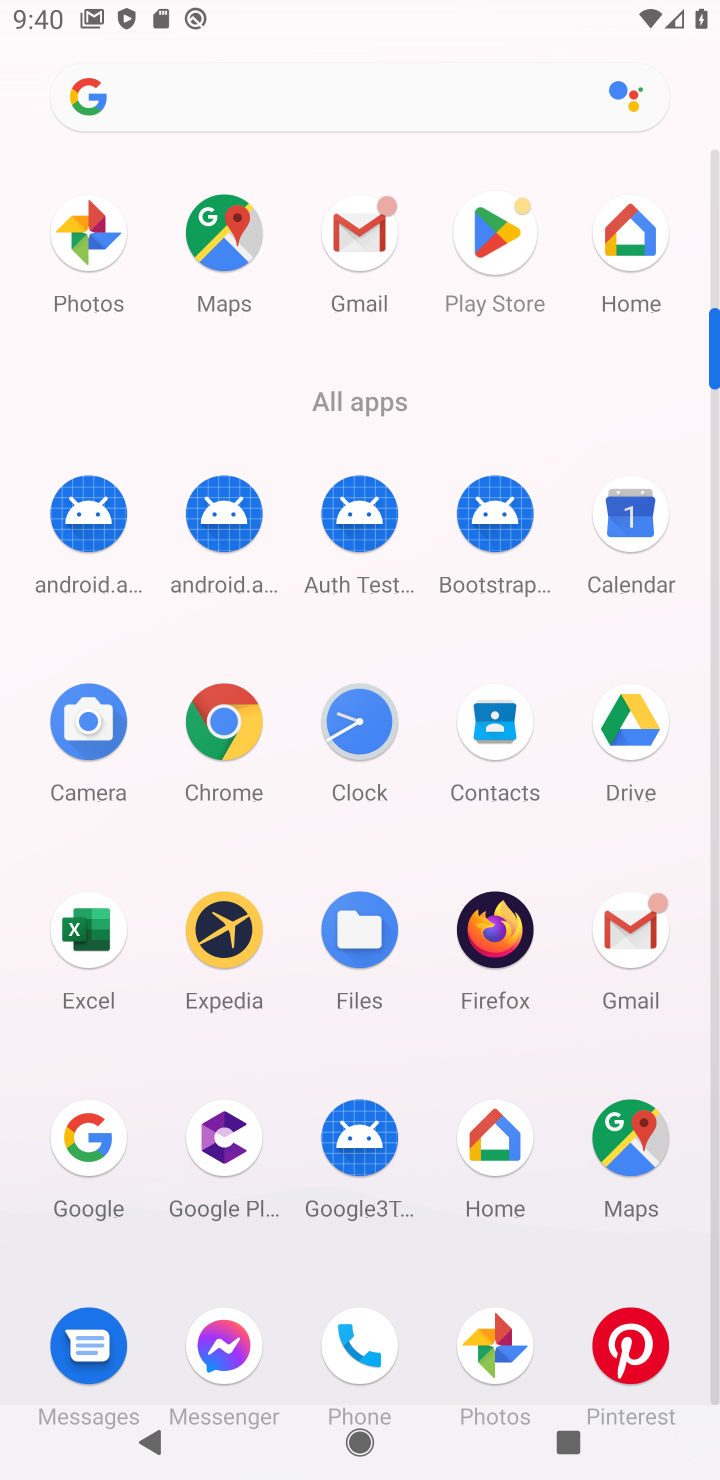
Step 31: click (508, 244)
Your task to perform on an android device: open app "Google Home" Image 32: 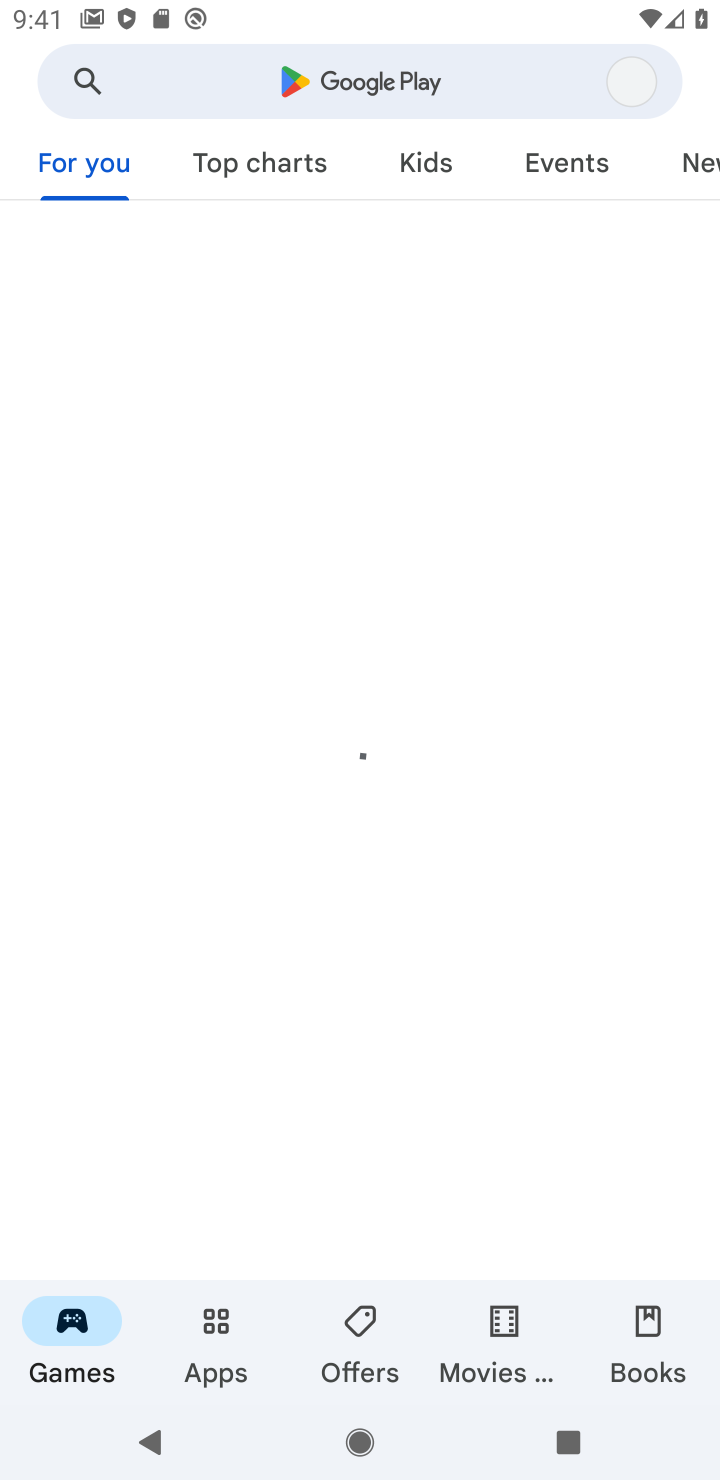
Step 32: click (508, 244)
Your task to perform on an android device: open app "Google Home" Image 33: 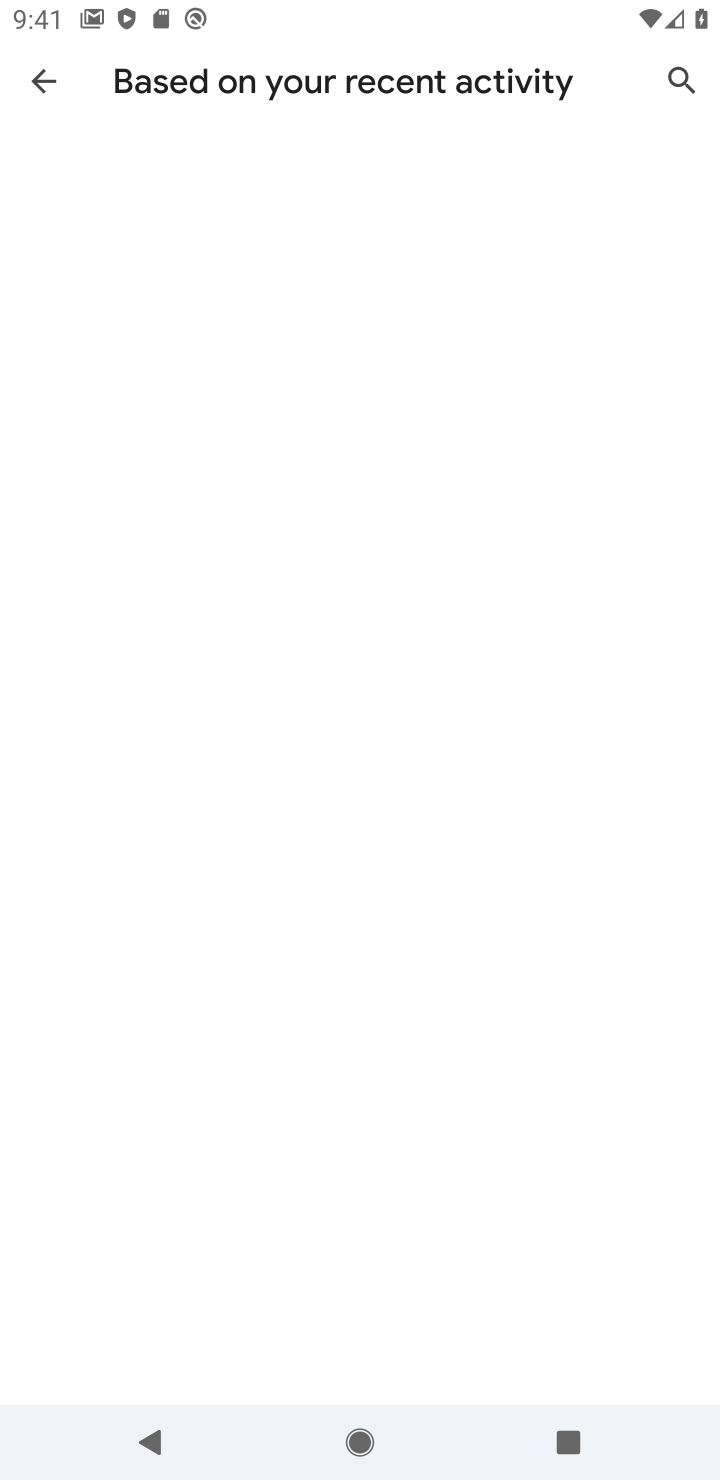
Step 33: click (248, 82)
Your task to perform on an android device: open app "Google Home" Image 34: 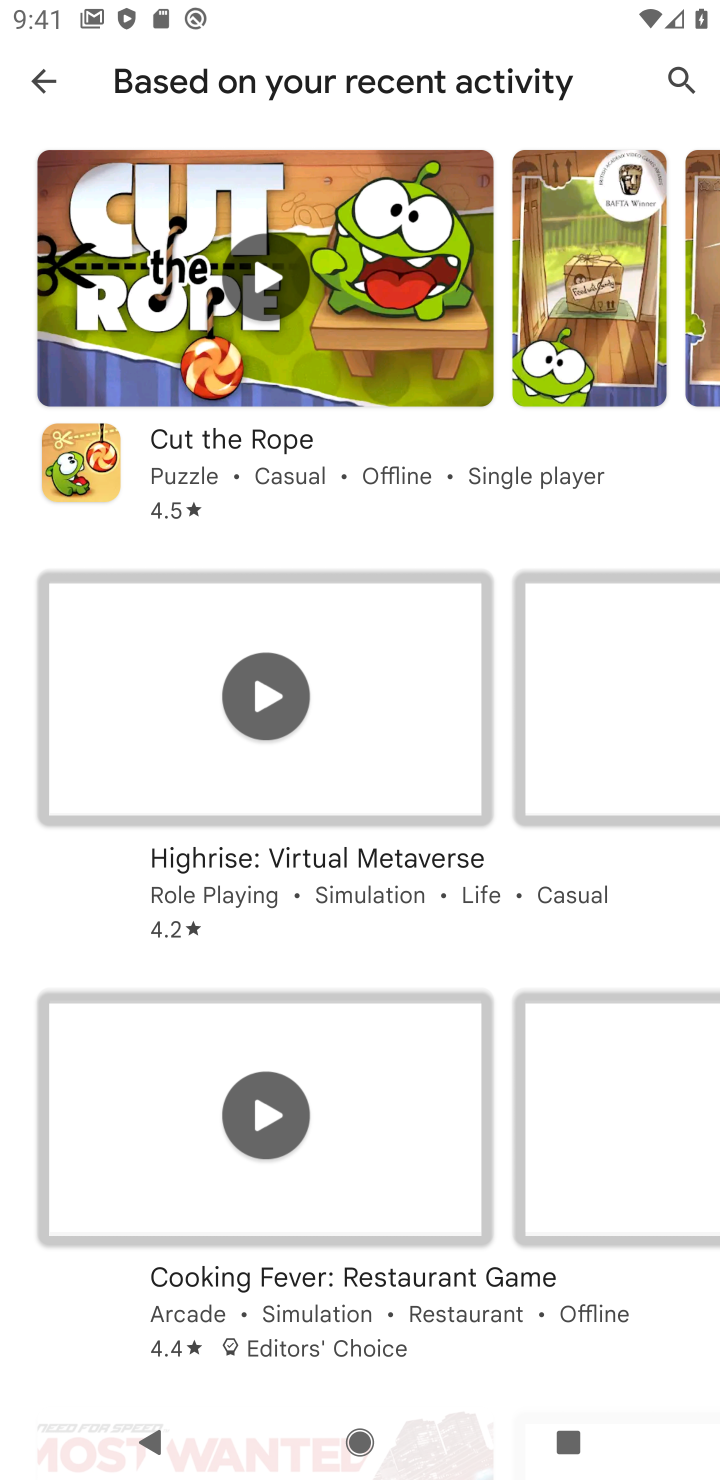
Step 34: click (30, 67)
Your task to perform on an android device: open app "Google Home" Image 35: 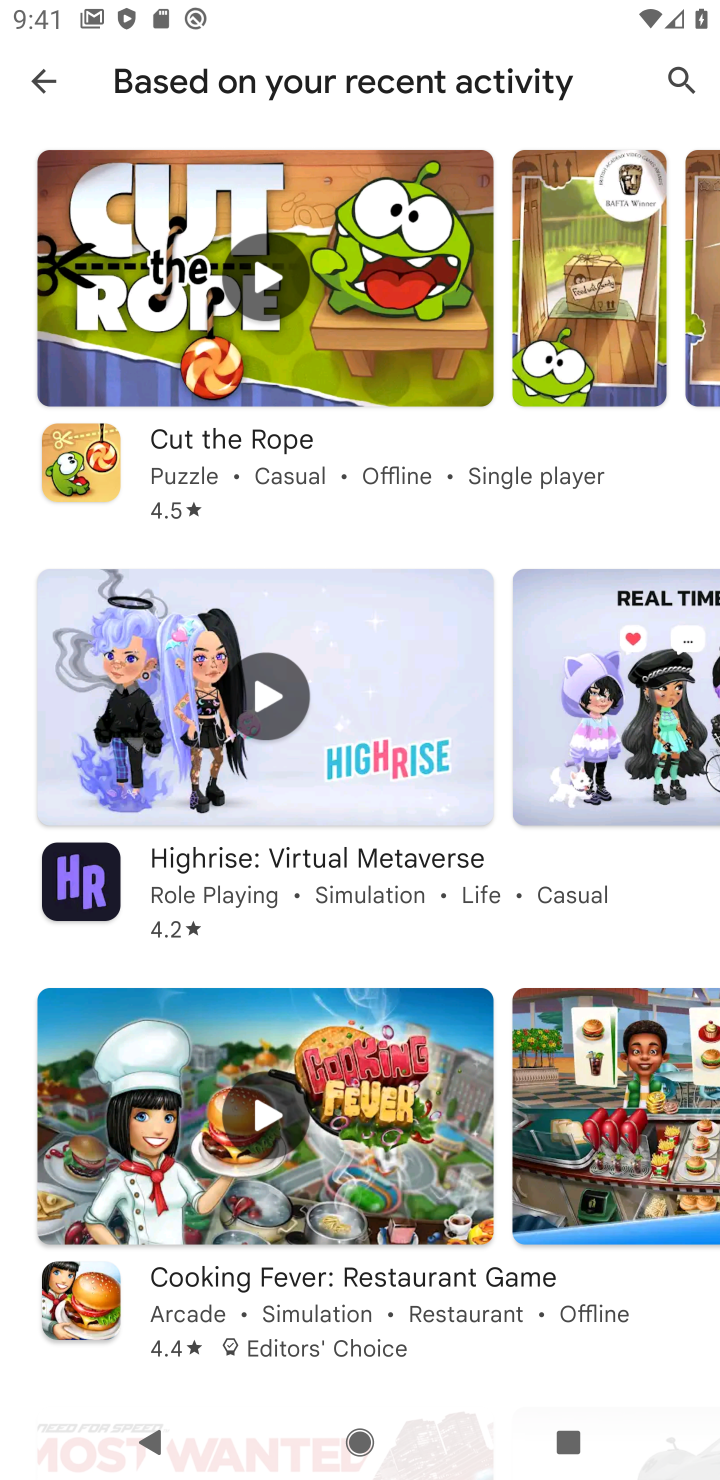
Step 35: click (45, 71)
Your task to perform on an android device: open app "Google Home" Image 36: 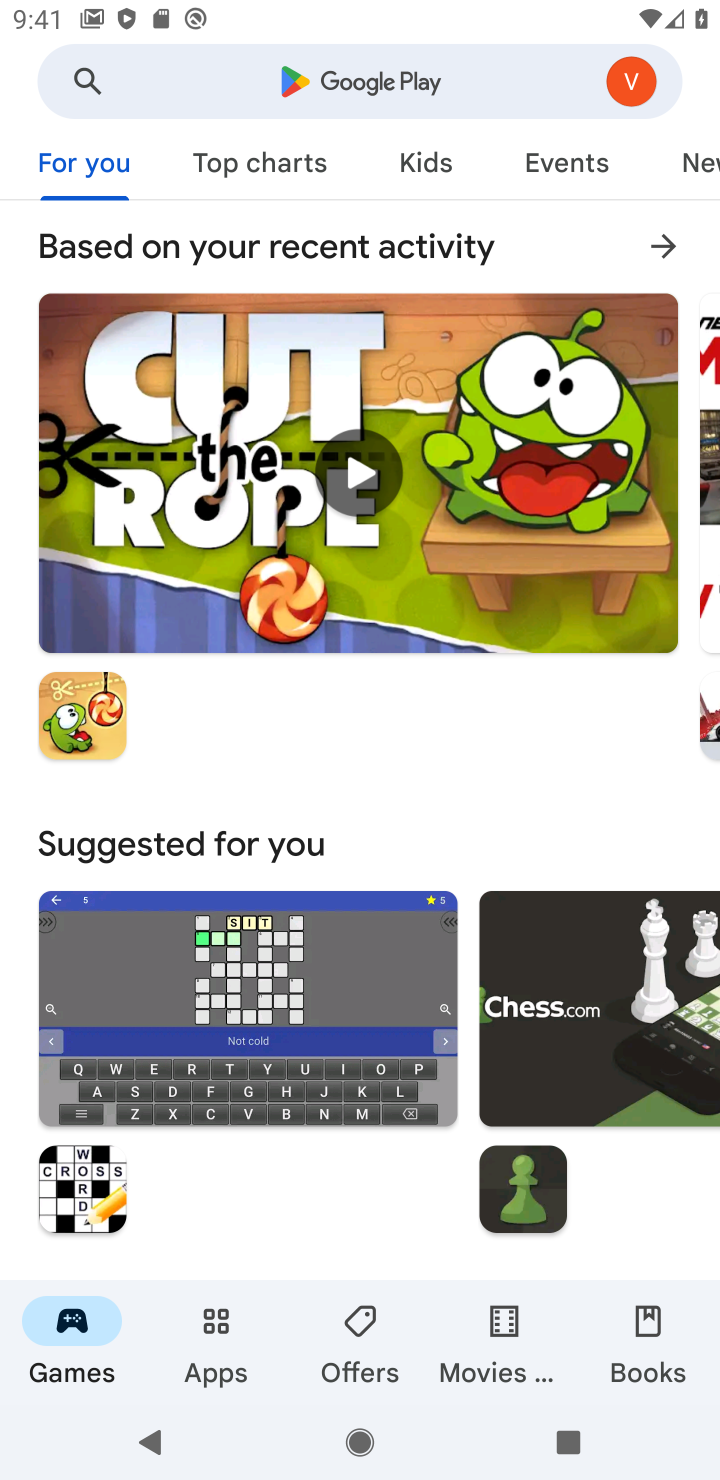
Step 36: click (239, 66)
Your task to perform on an android device: open app "Google Home" Image 37: 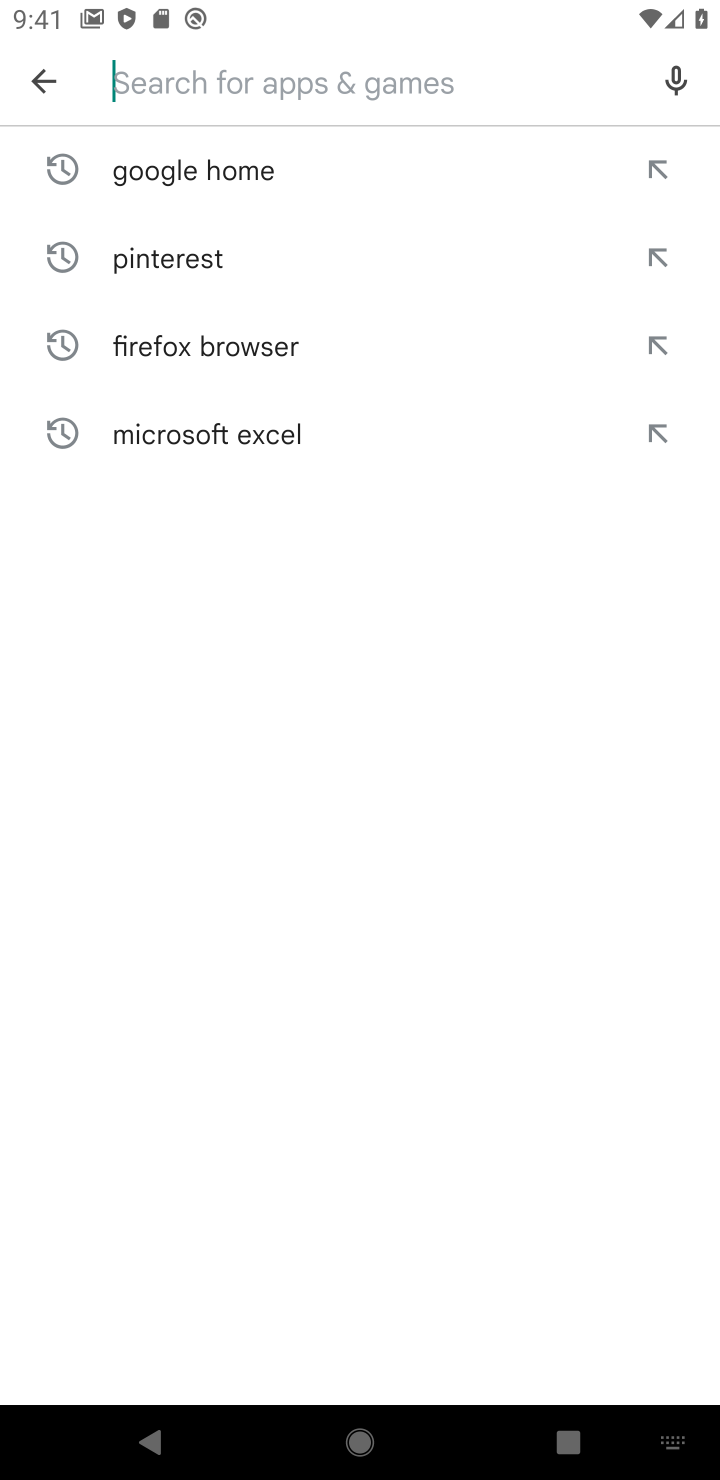
Step 37: click (224, 177)
Your task to perform on an android device: open app "Google Home" Image 38: 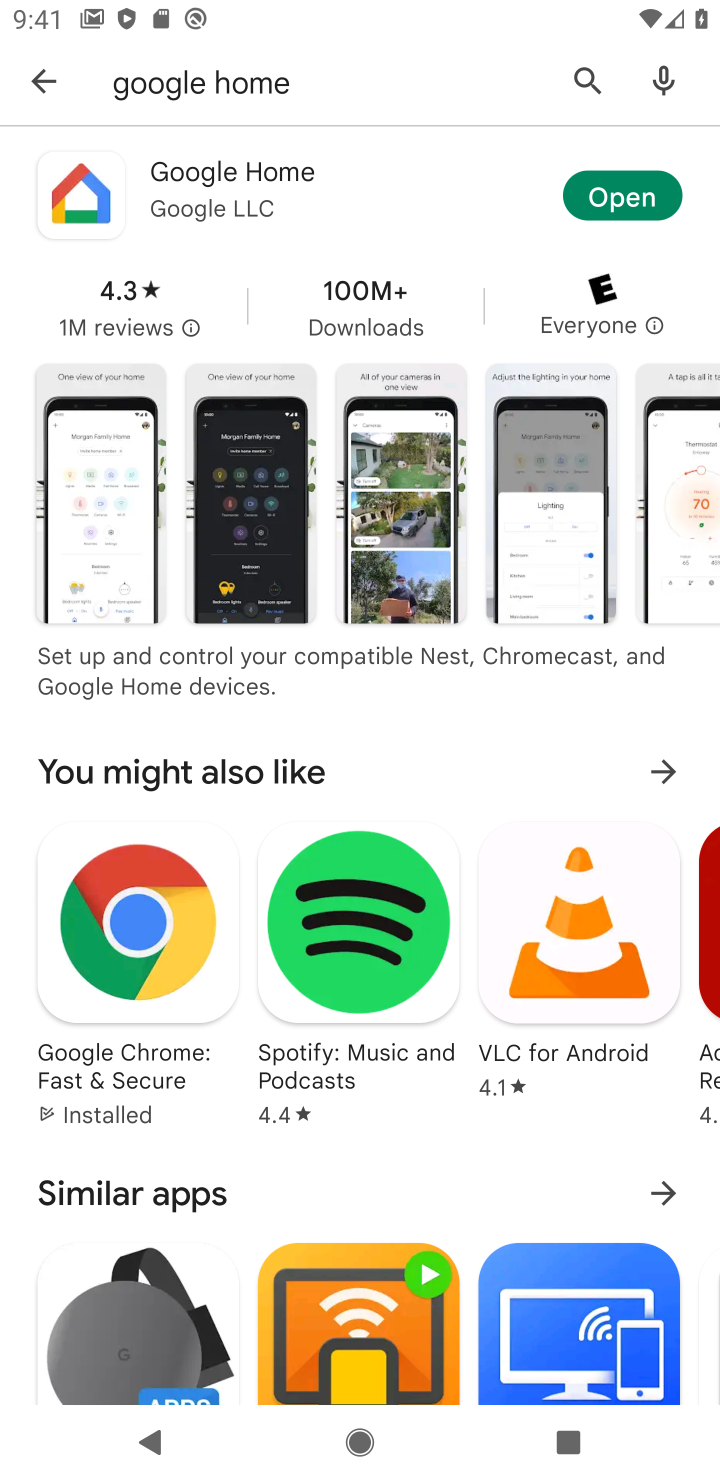
Step 38: click (623, 187)
Your task to perform on an android device: open app "Google Home" Image 39: 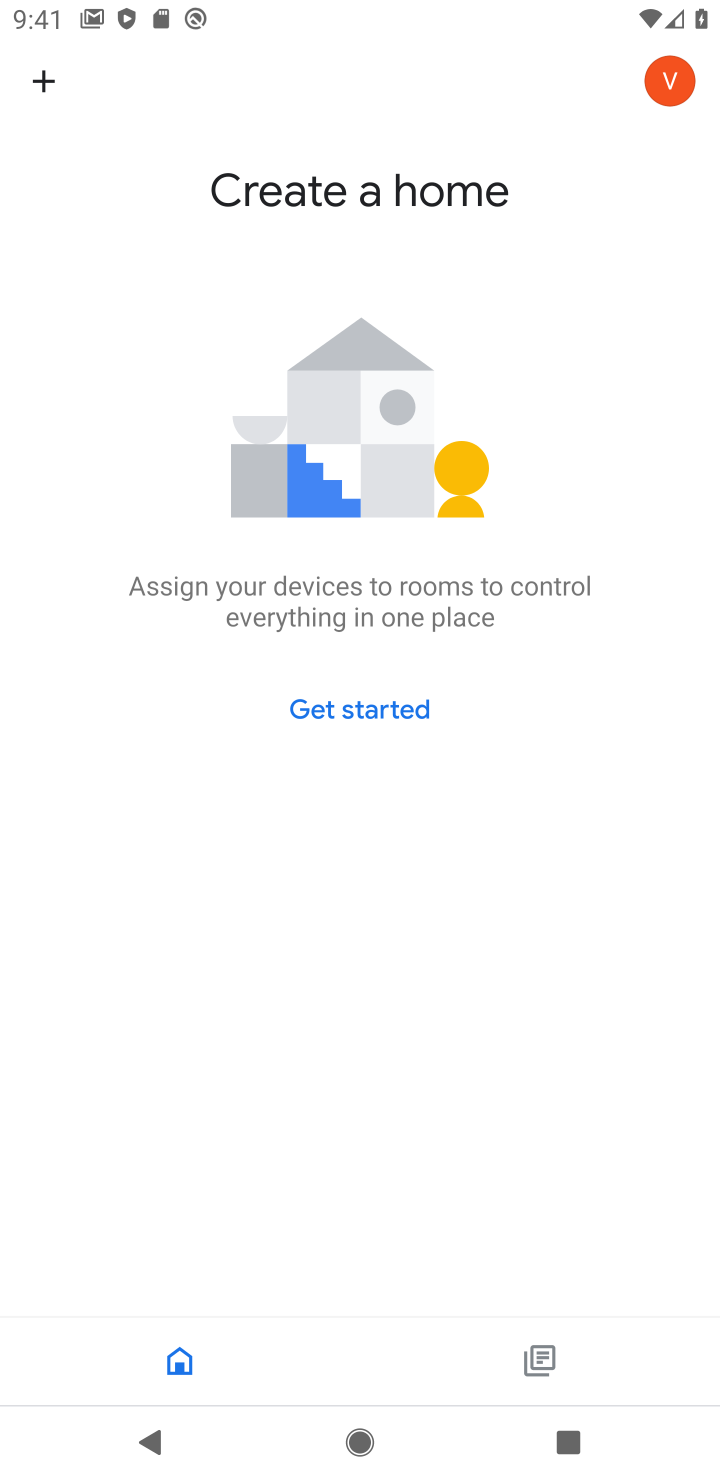
Step 39: click (358, 691)
Your task to perform on an android device: open app "Google Home" Image 40: 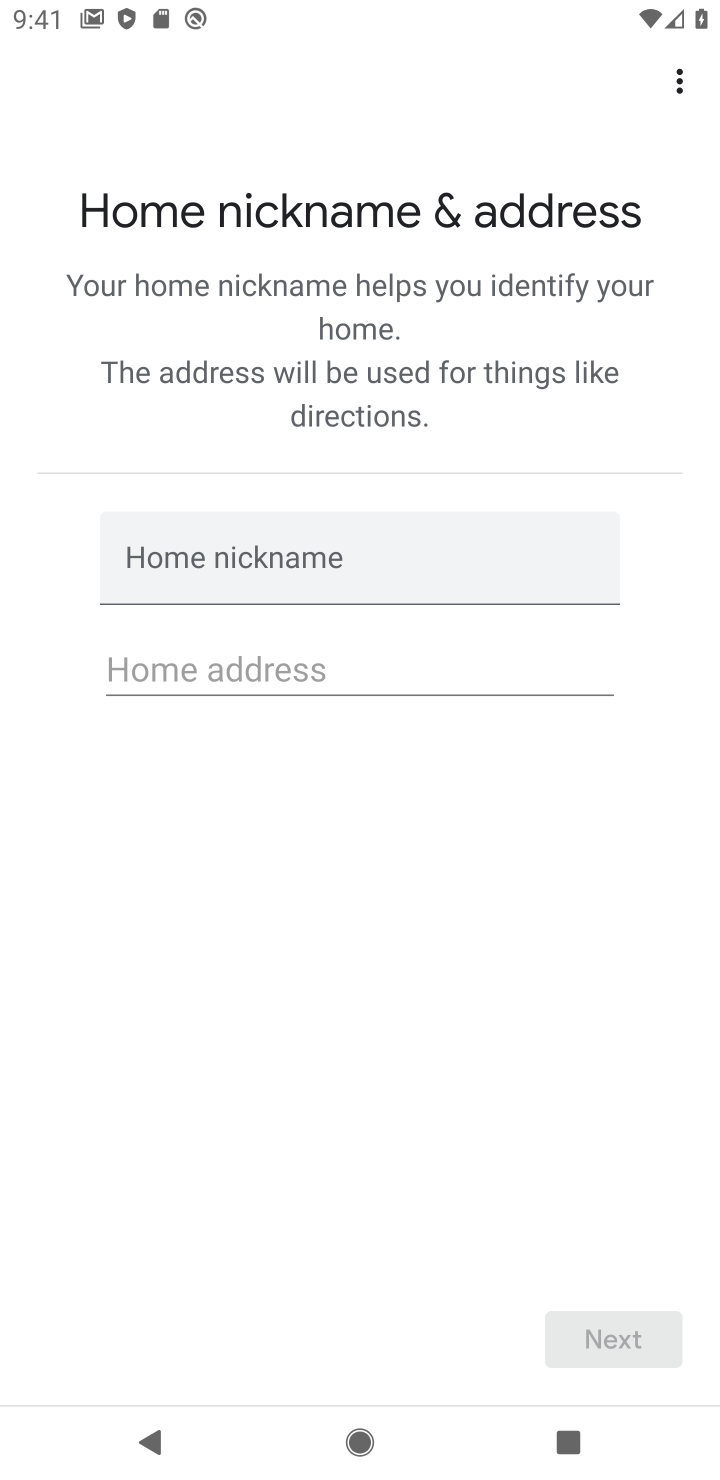
Step 40: click (342, 520)
Your task to perform on an android device: open app "Google Home" Image 41: 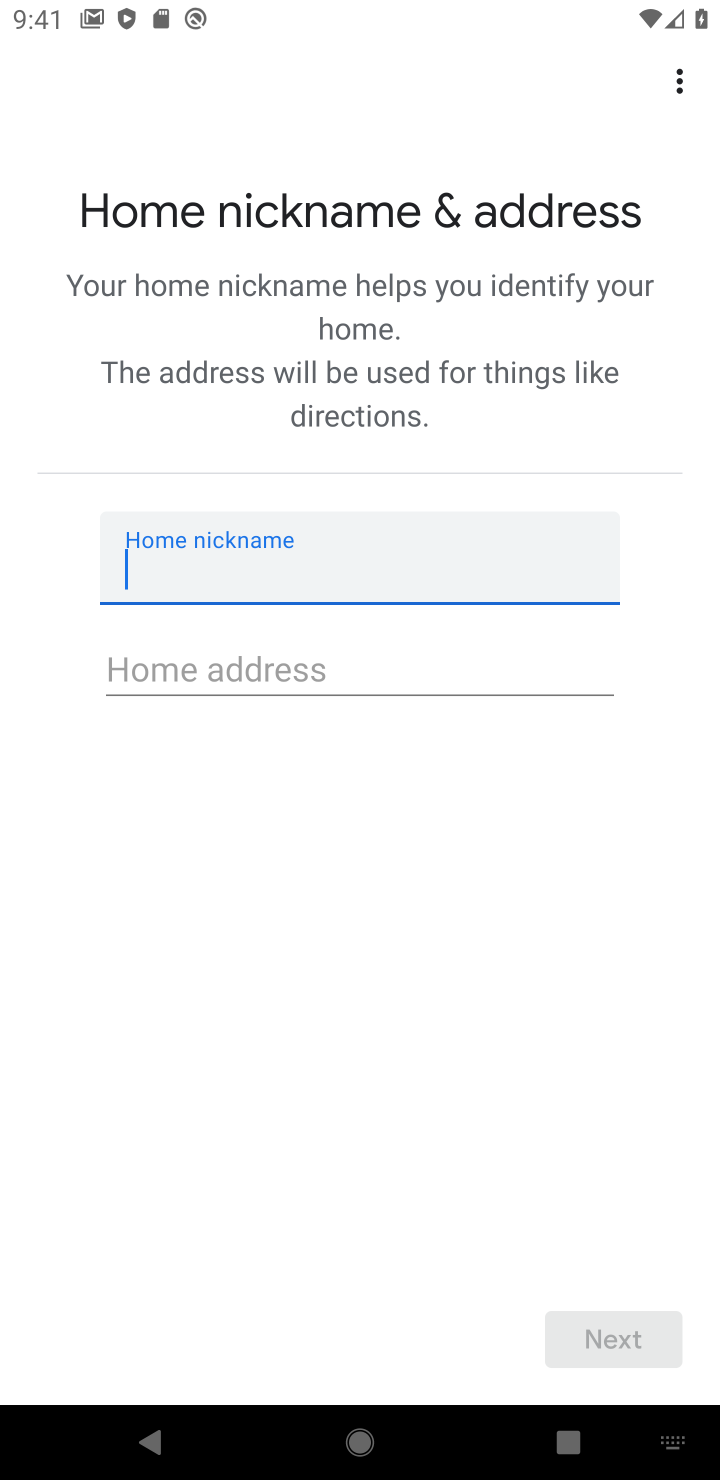
Step 41: click (238, 673)
Your task to perform on an android device: open app "Google Home" Image 42: 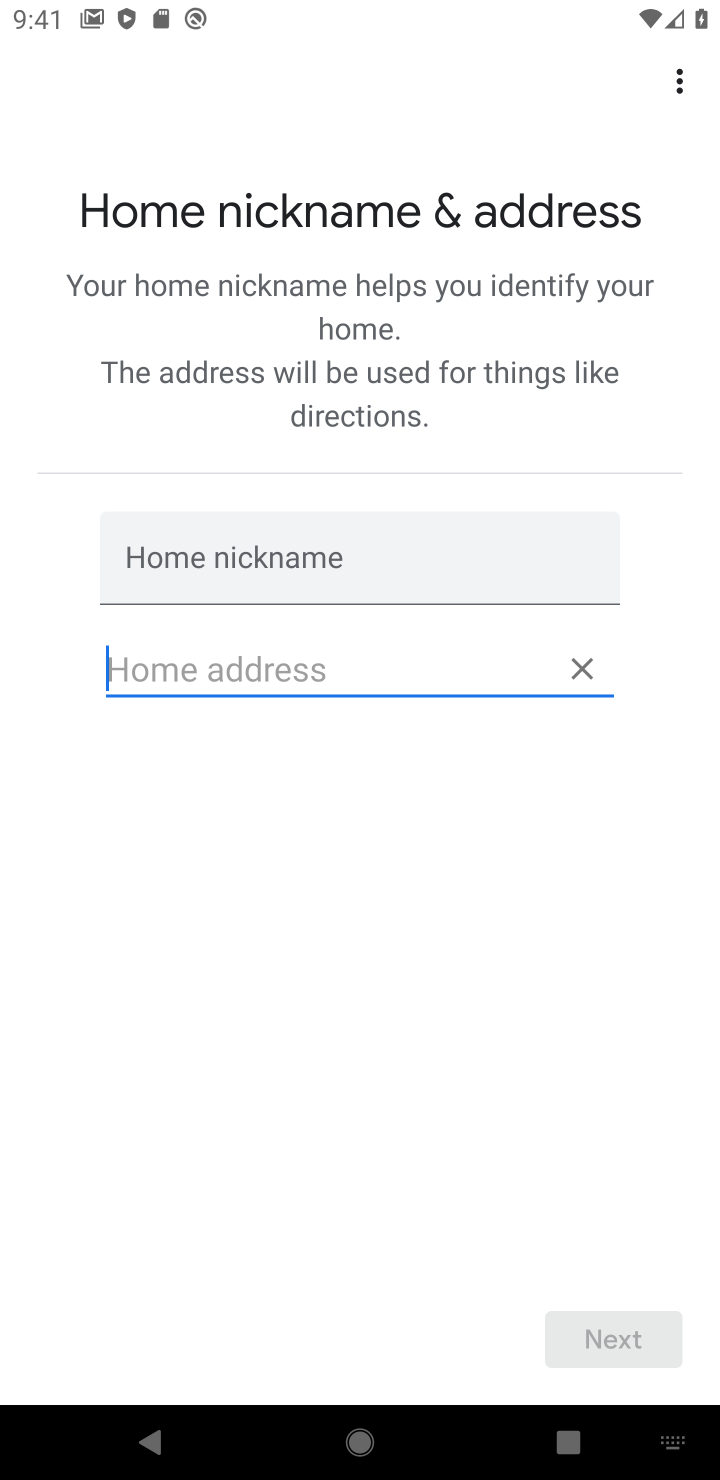
Step 42: click (234, 571)
Your task to perform on an android device: open app "Google Home" Image 43: 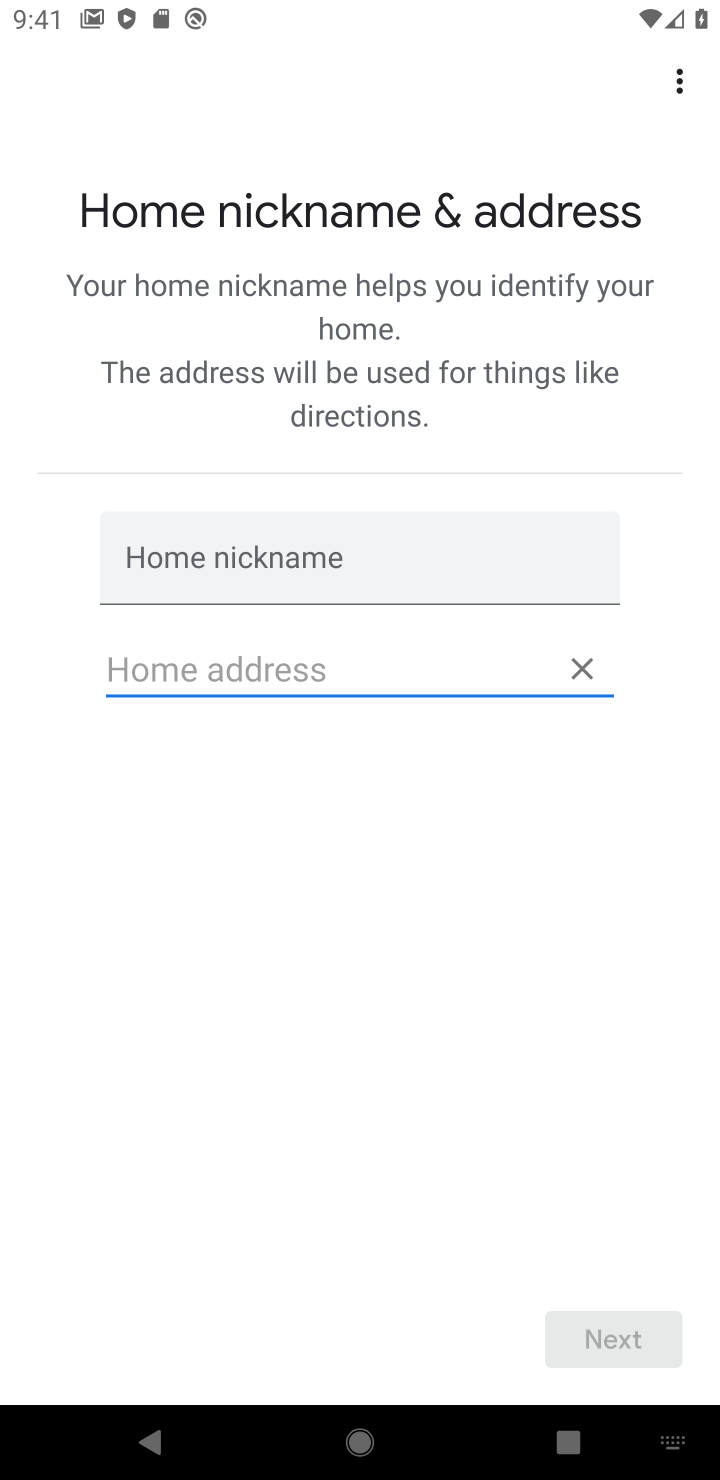
Step 43: click (234, 571)
Your task to perform on an android device: open app "Google Home" Image 44: 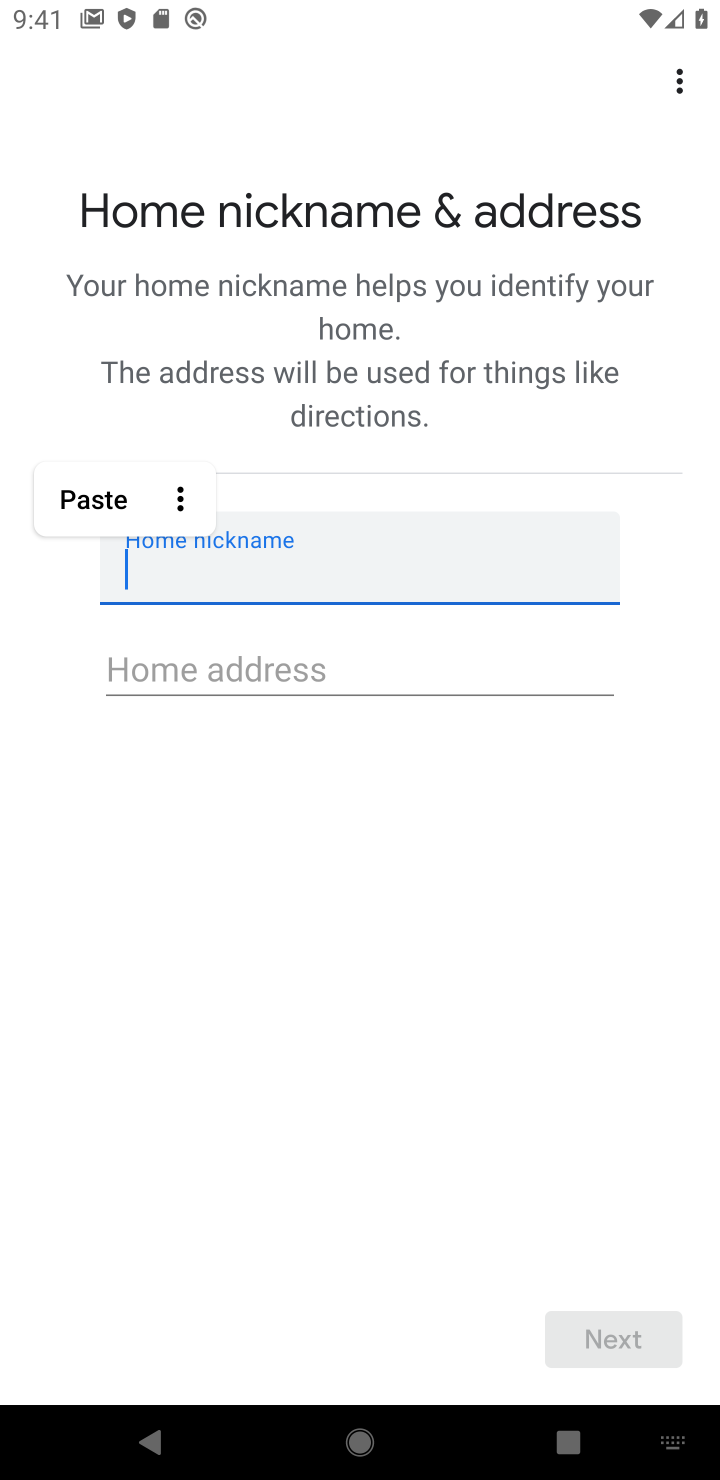
Step 44: type "soul"
Your task to perform on an android device: open app "Google Home" Image 45: 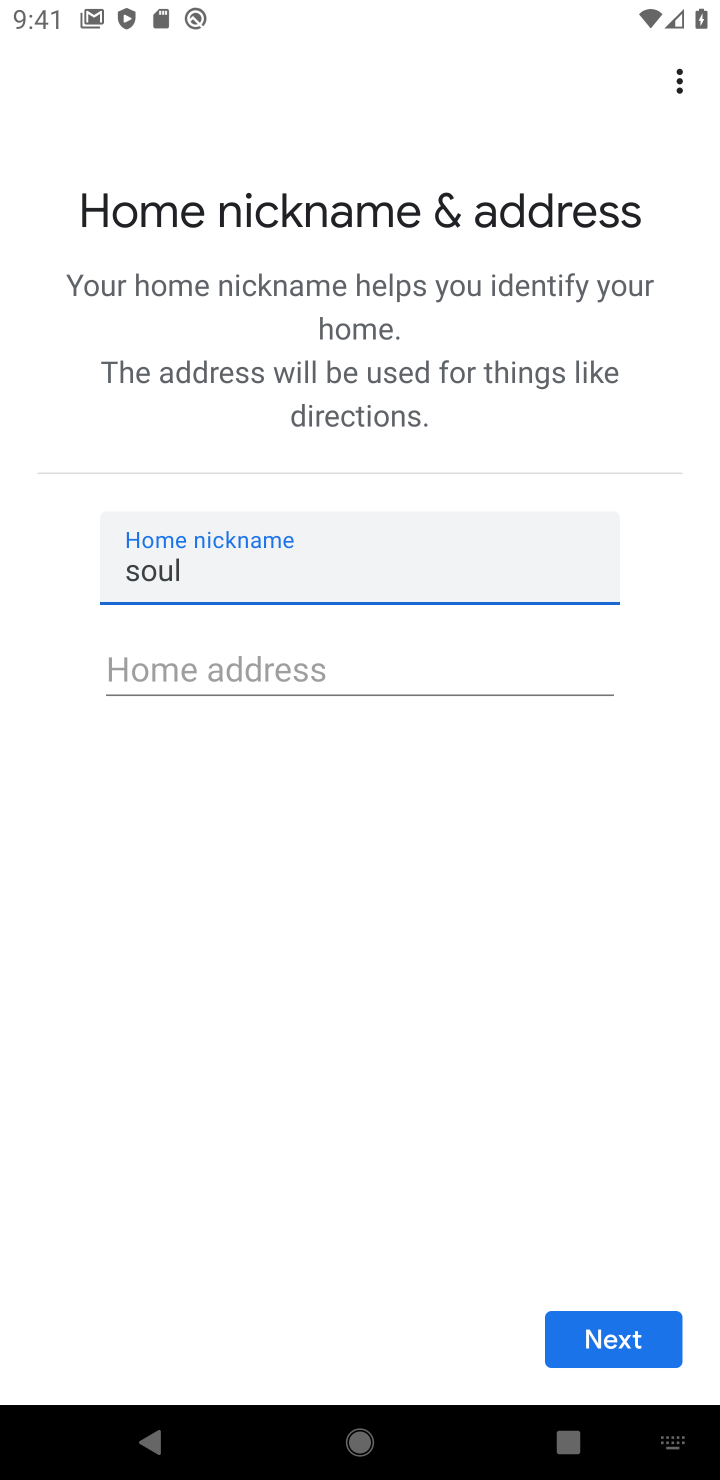
Step 45: click (615, 1331)
Your task to perform on an android device: open app "Google Home" Image 46: 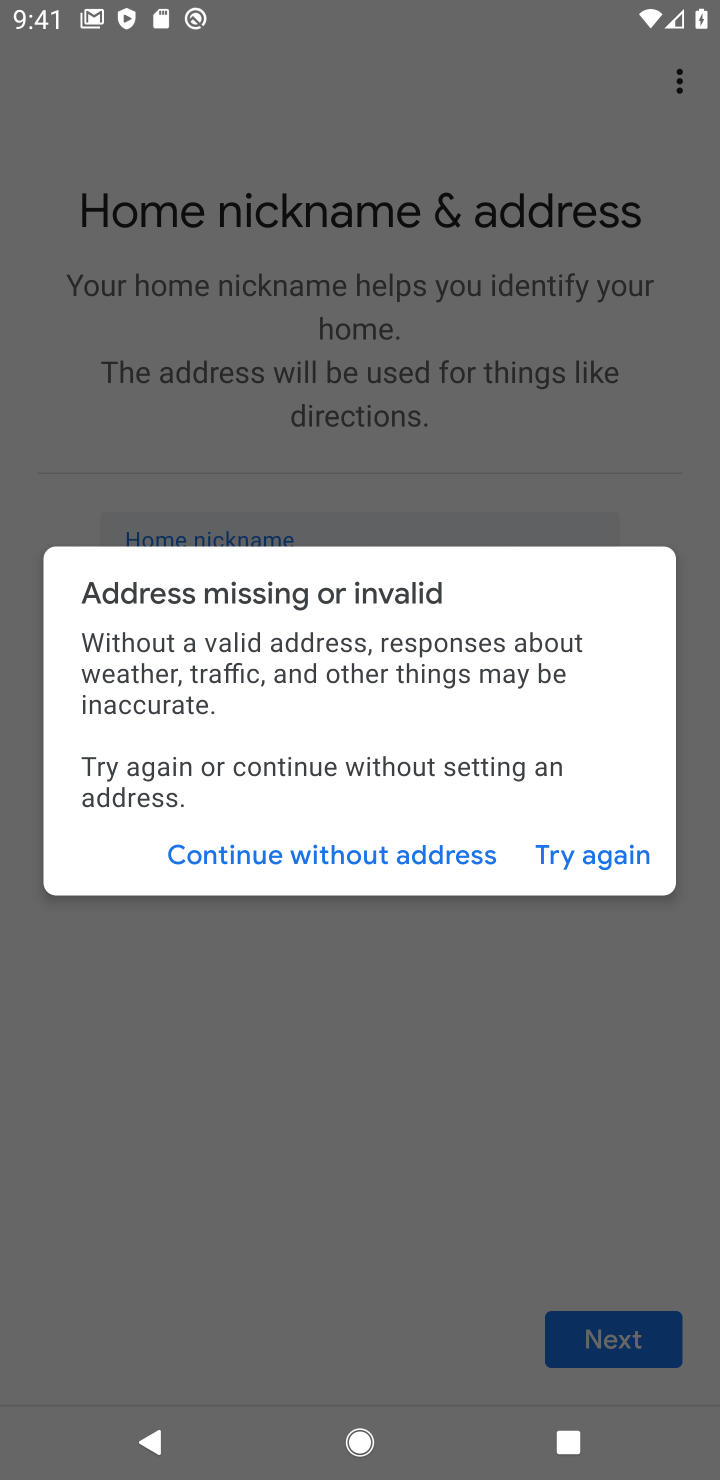
Step 46: click (580, 821)
Your task to perform on an android device: open app "Google Home" Image 47: 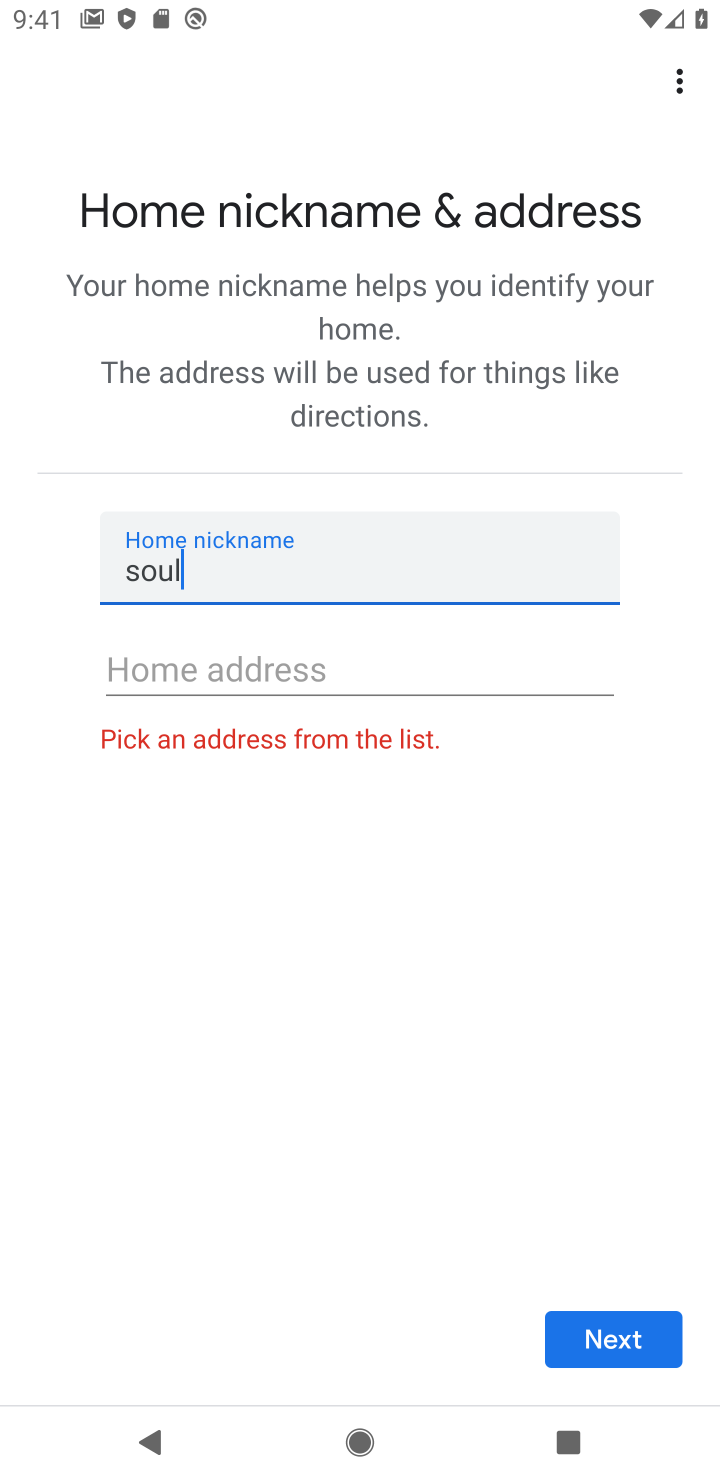
Step 47: click (613, 1331)
Your task to perform on an android device: open app "Google Home" Image 48: 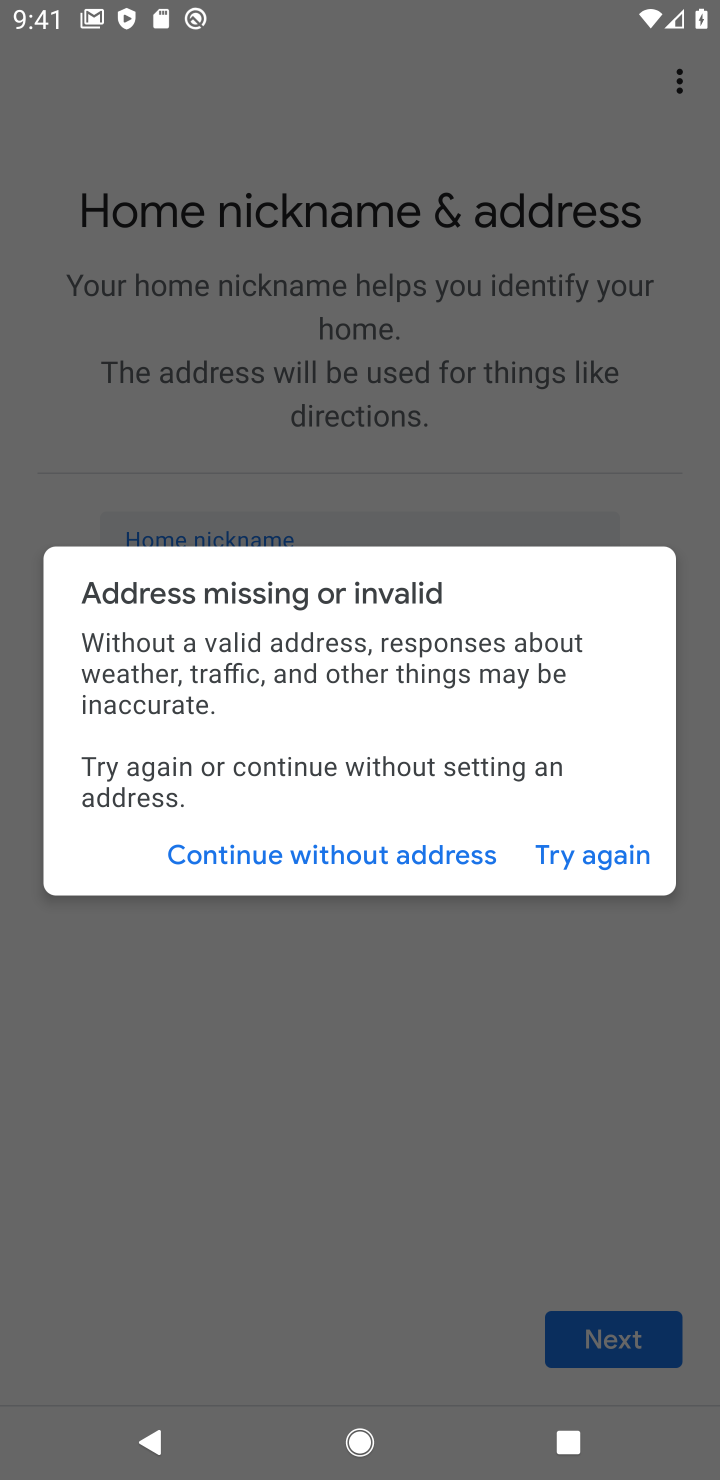
Step 48: click (381, 857)
Your task to perform on an android device: open app "Google Home" Image 49: 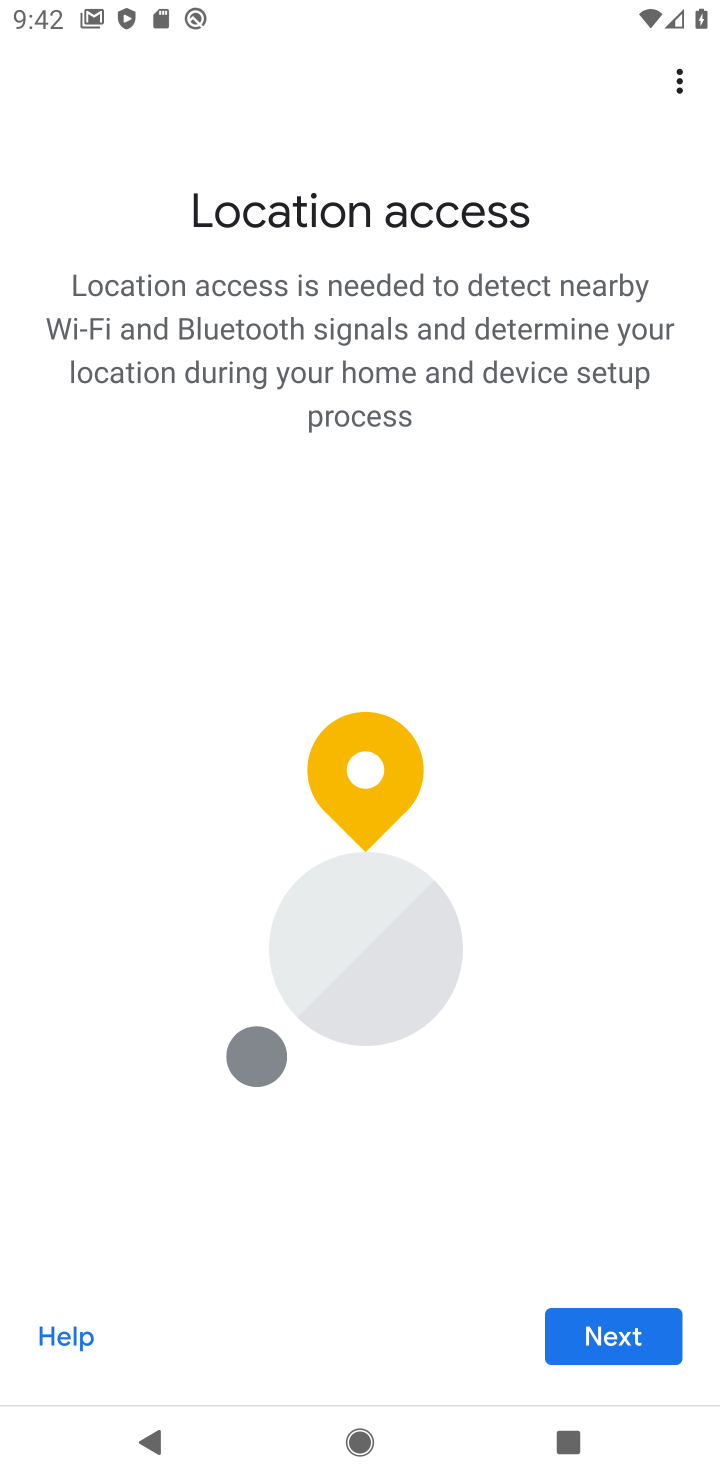
Step 49: click (649, 1337)
Your task to perform on an android device: open app "Google Home" Image 50: 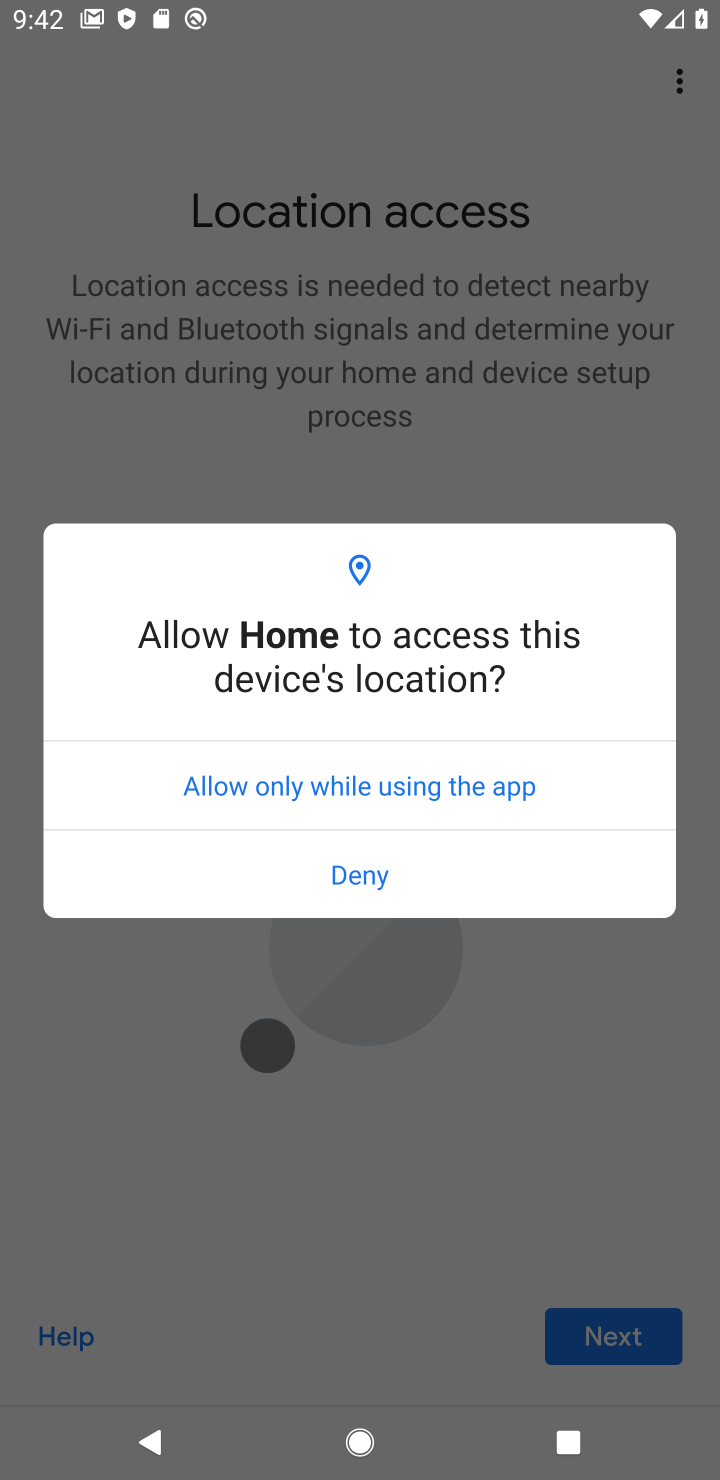
Step 50: click (370, 800)
Your task to perform on an android device: open app "Google Home" Image 51: 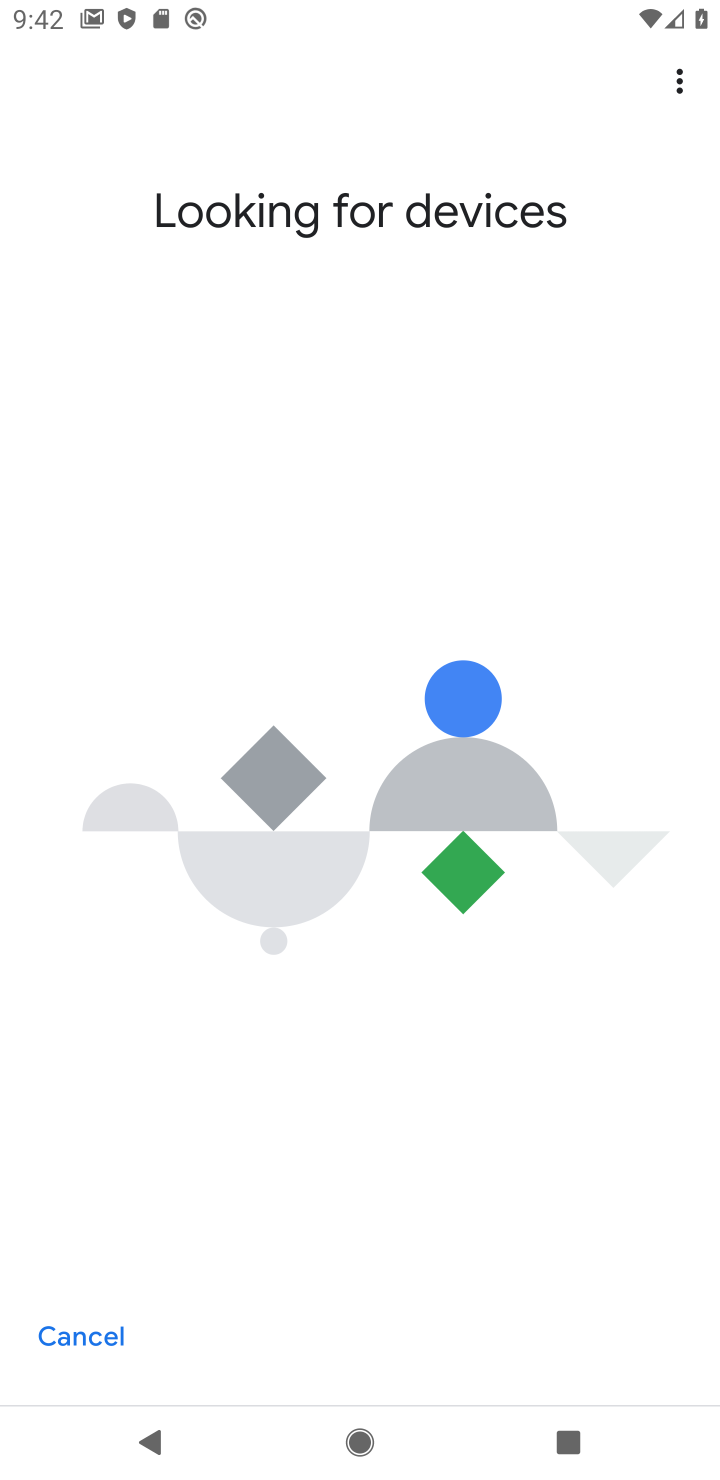
Step 51: task complete